Your task to perform on an android device: check battery use Image 0: 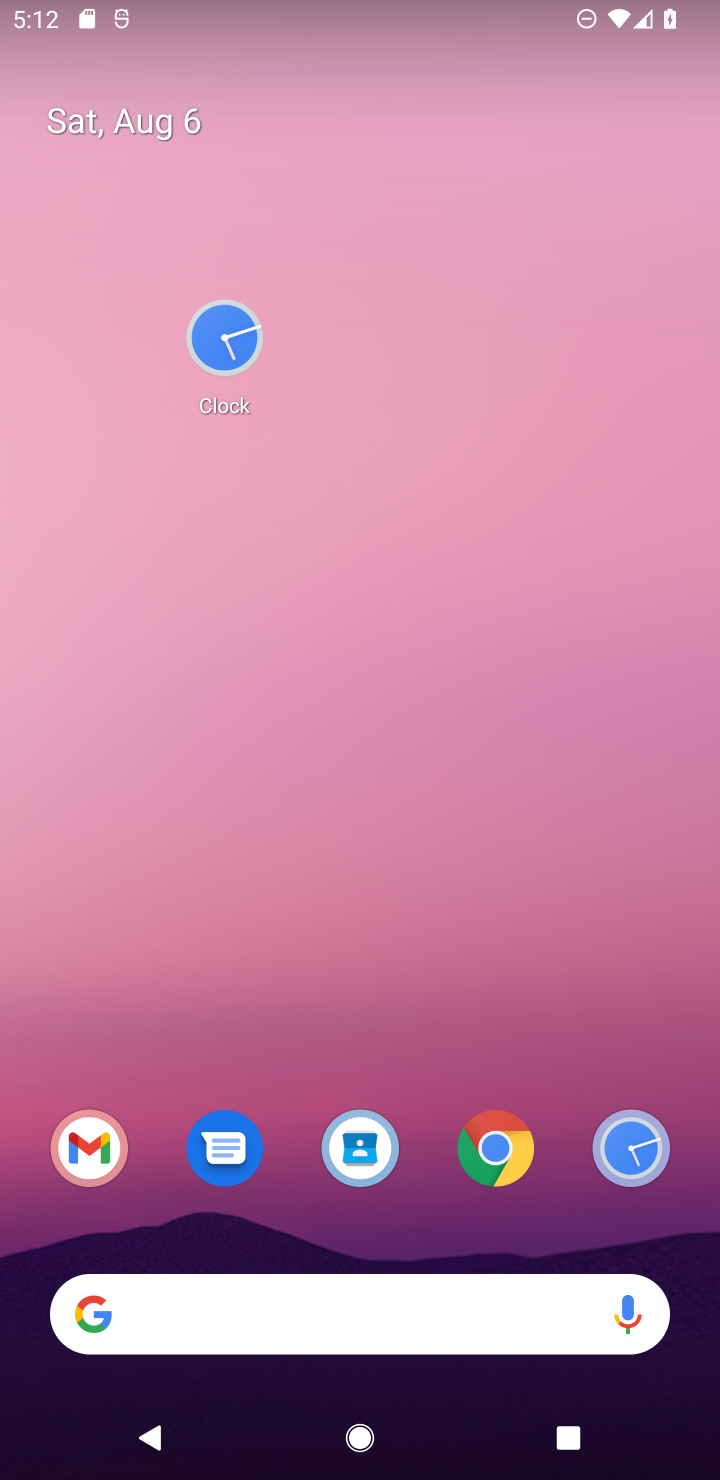
Step 0: drag from (398, 1161) to (352, 176)
Your task to perform on an android device: check battery use Image 1: 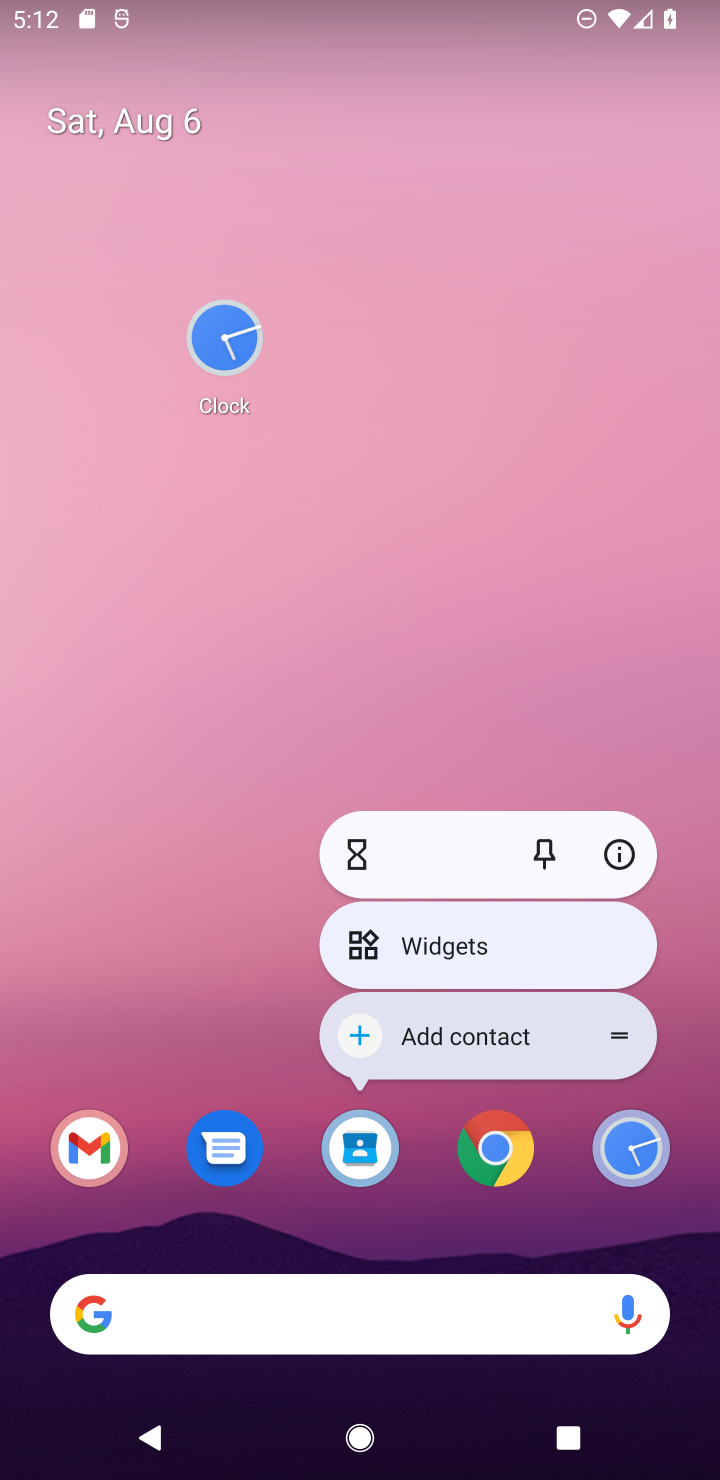
Step 1: drag from (263, 1244) to (340, 161)
Your task to perform on an android device: check battery use Image 2: 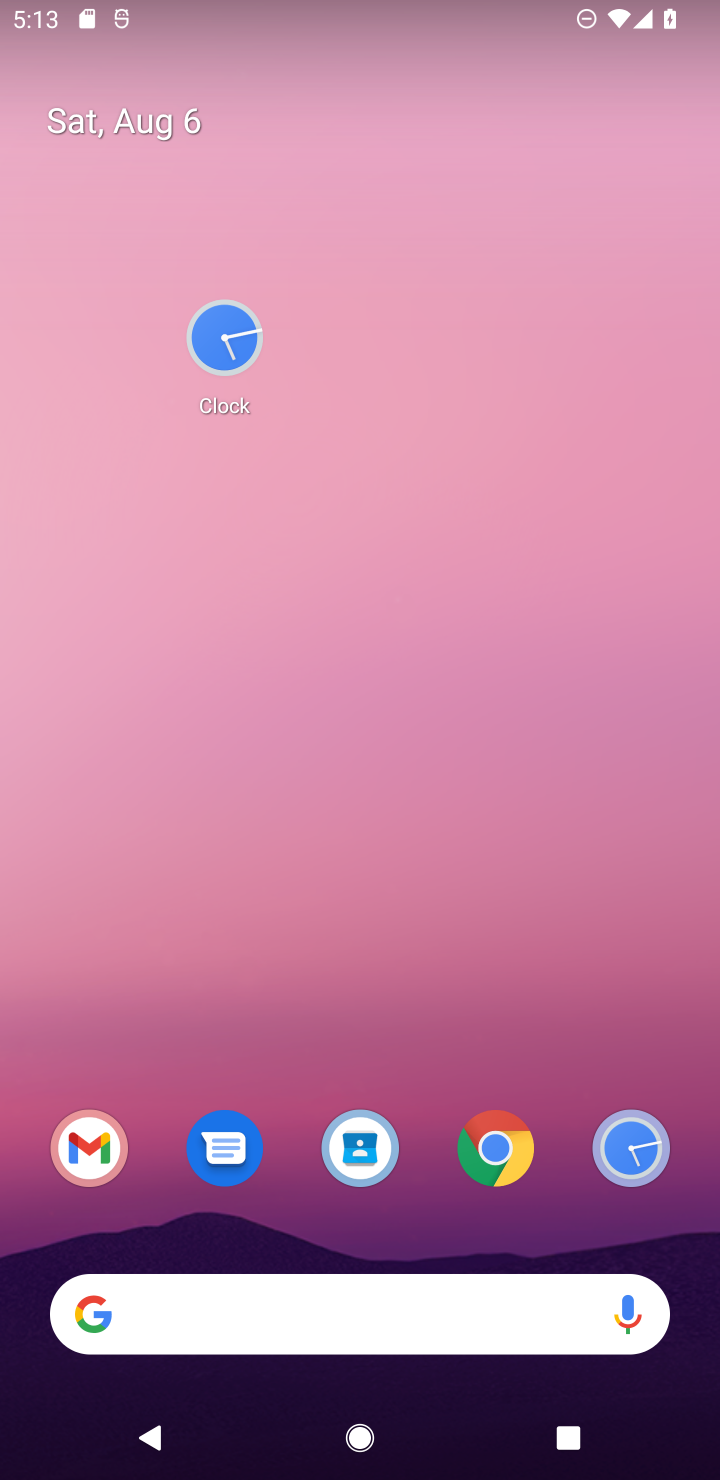
Step 2: drag from (311, 1211) to (502, 408)
Your task to perform on an android device: check battery use Image 3: 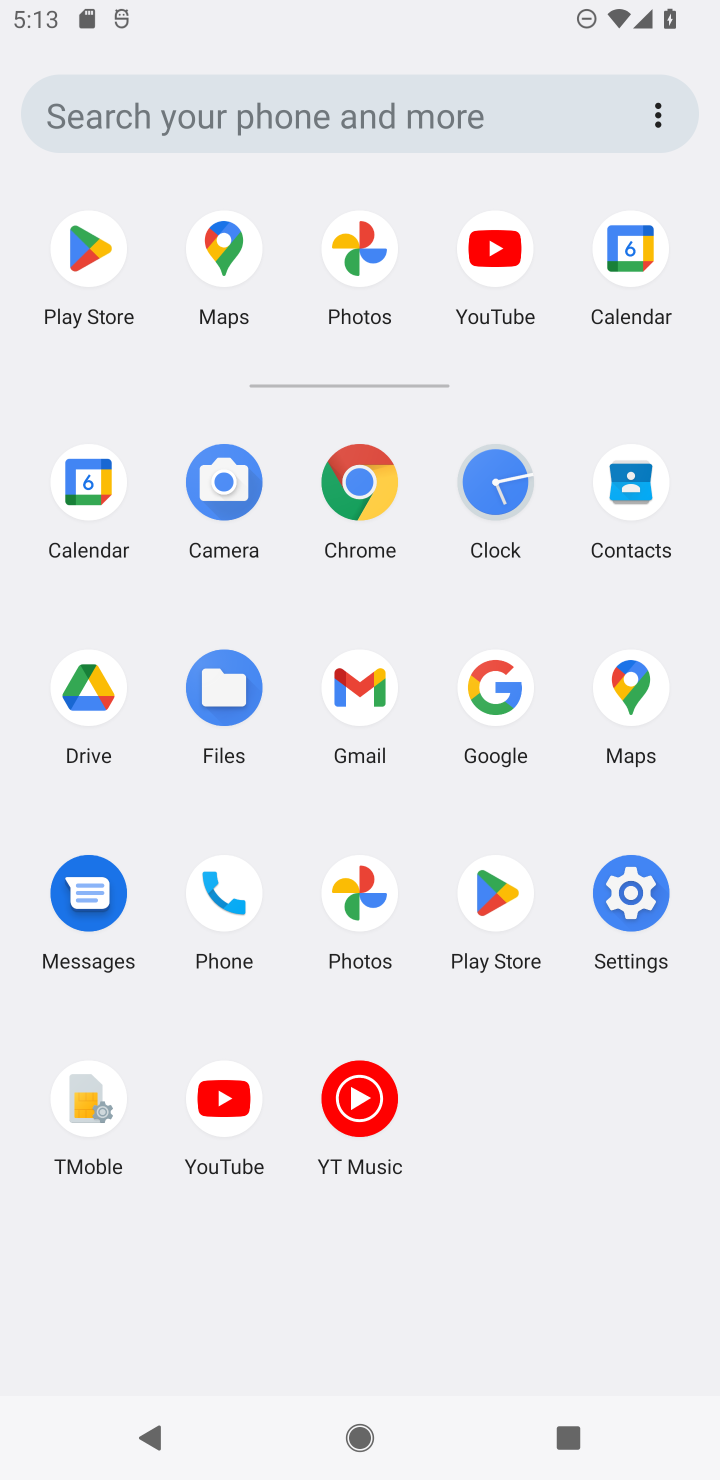
Step 3: click (618, 896)
Your task to perform on an android device: check battery use Image 4: 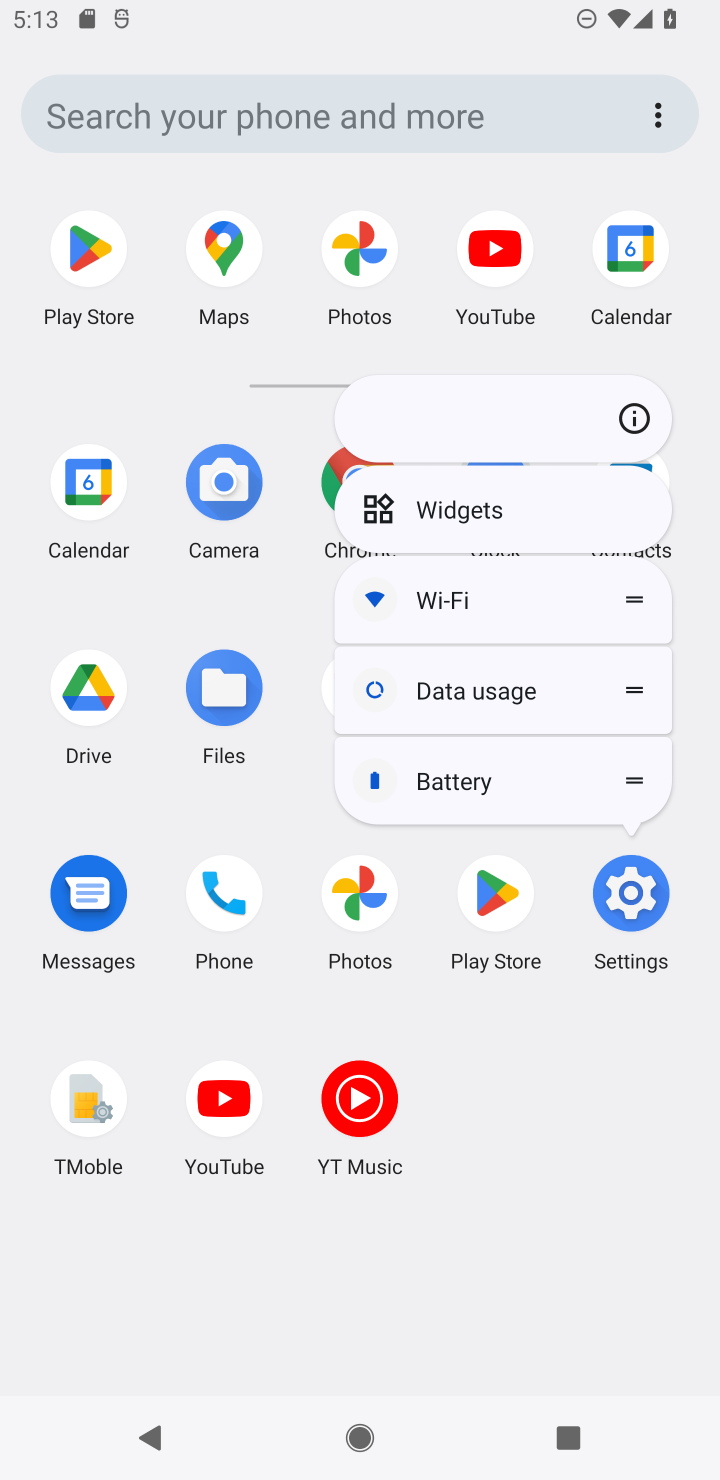
Step 4: click (629, 424)
Your task to perform on an android device: check battery use Image 5: 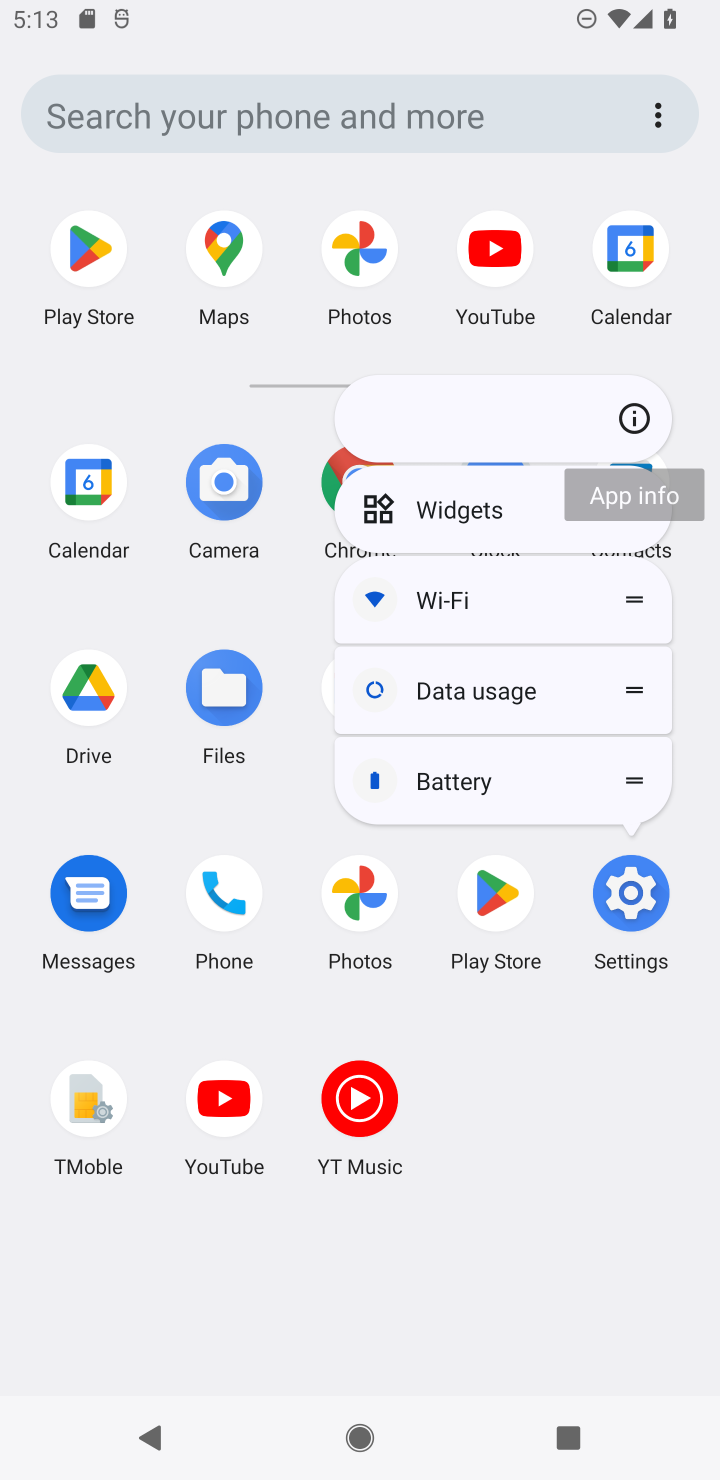
Step 5: click (651, 422)
Your task to perform on an android device: check battery use Image 6: 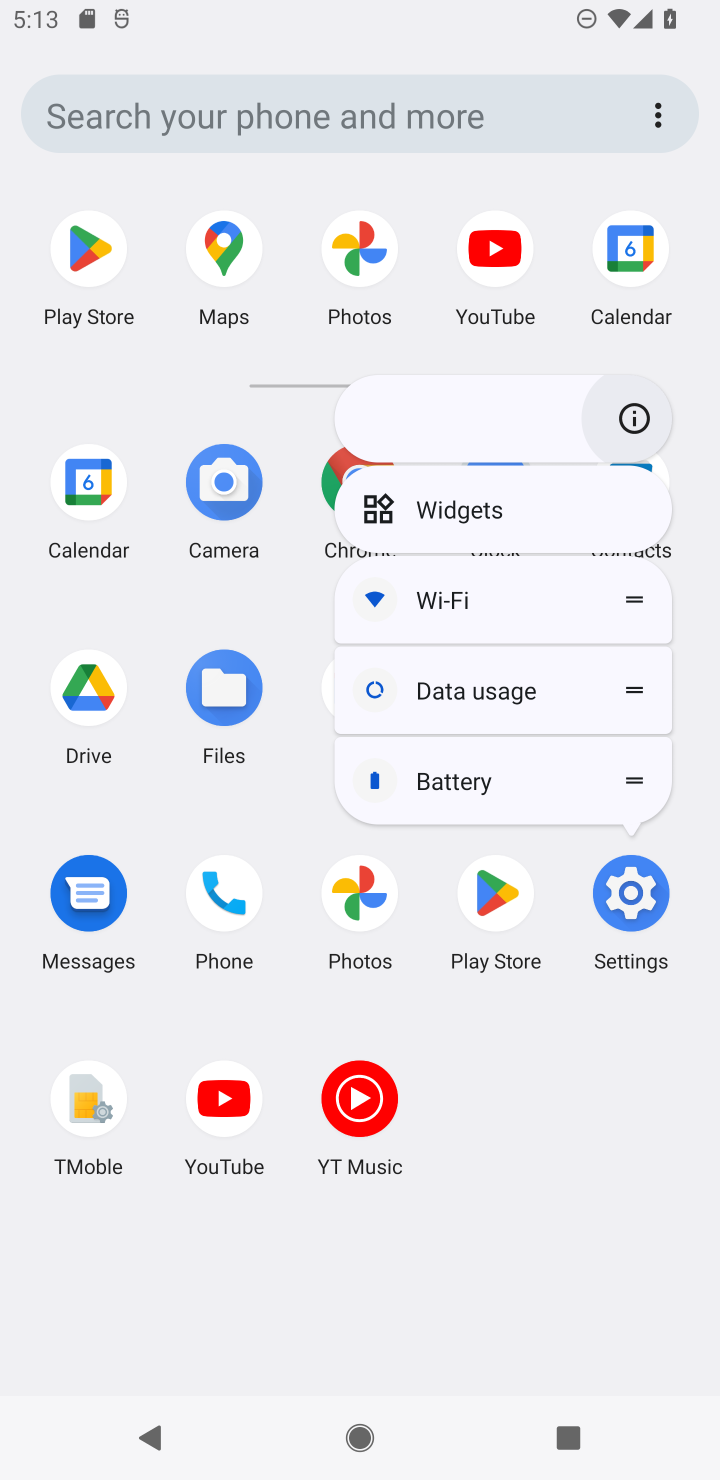
Step 6: click (639, 411)
Your task to perform on an android device: check battery use Image 7: 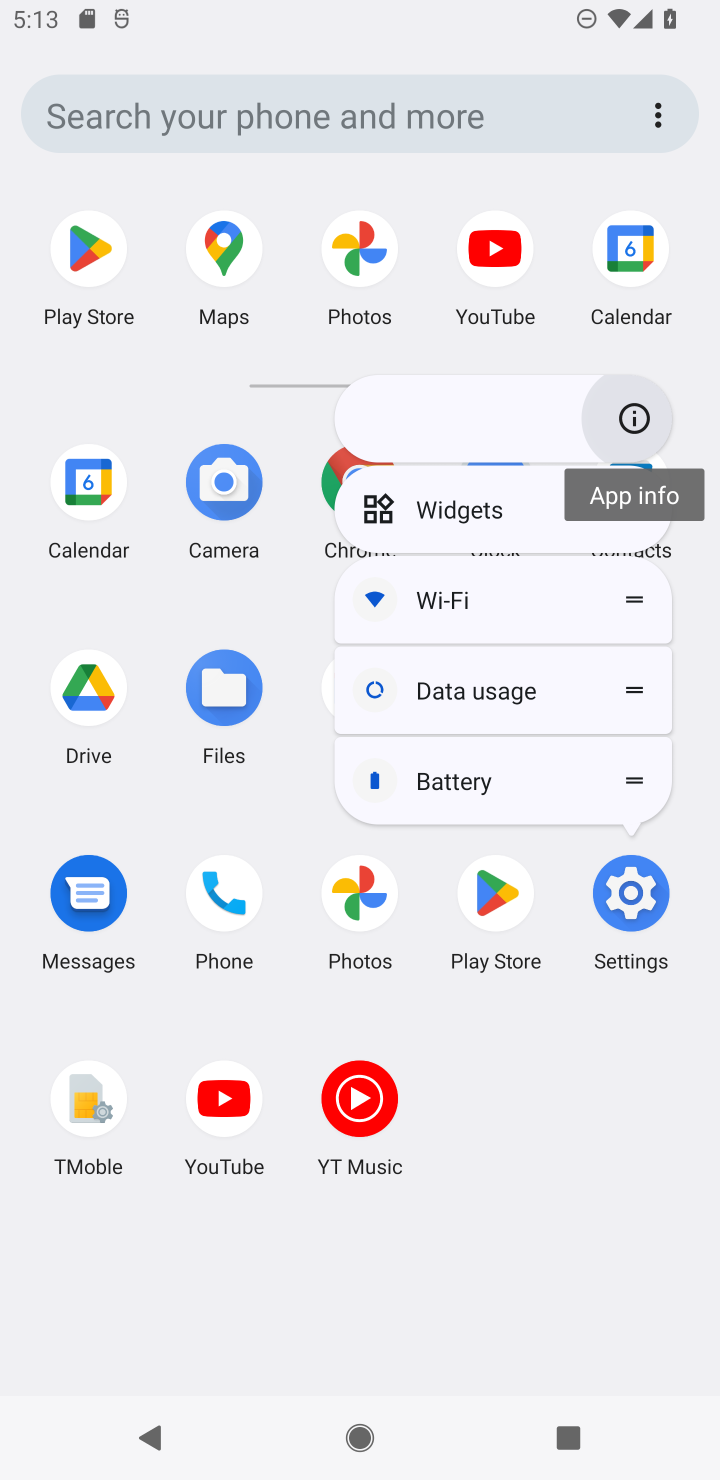
Step 7: click (622, 872)
Your task to perform on an android device: check battery use Image 8: 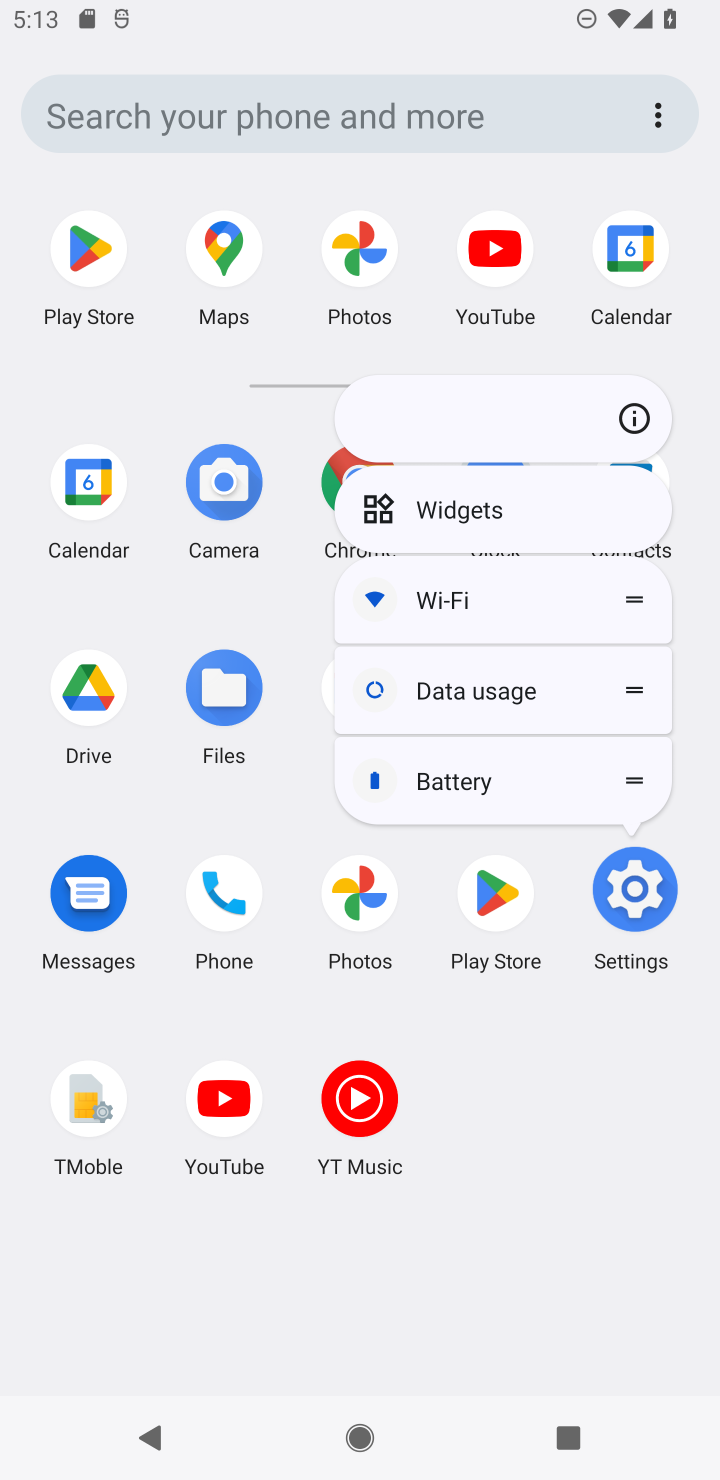
Step 8: click (649, 919)
Your task to perform on an android device: check battery use Image 9: 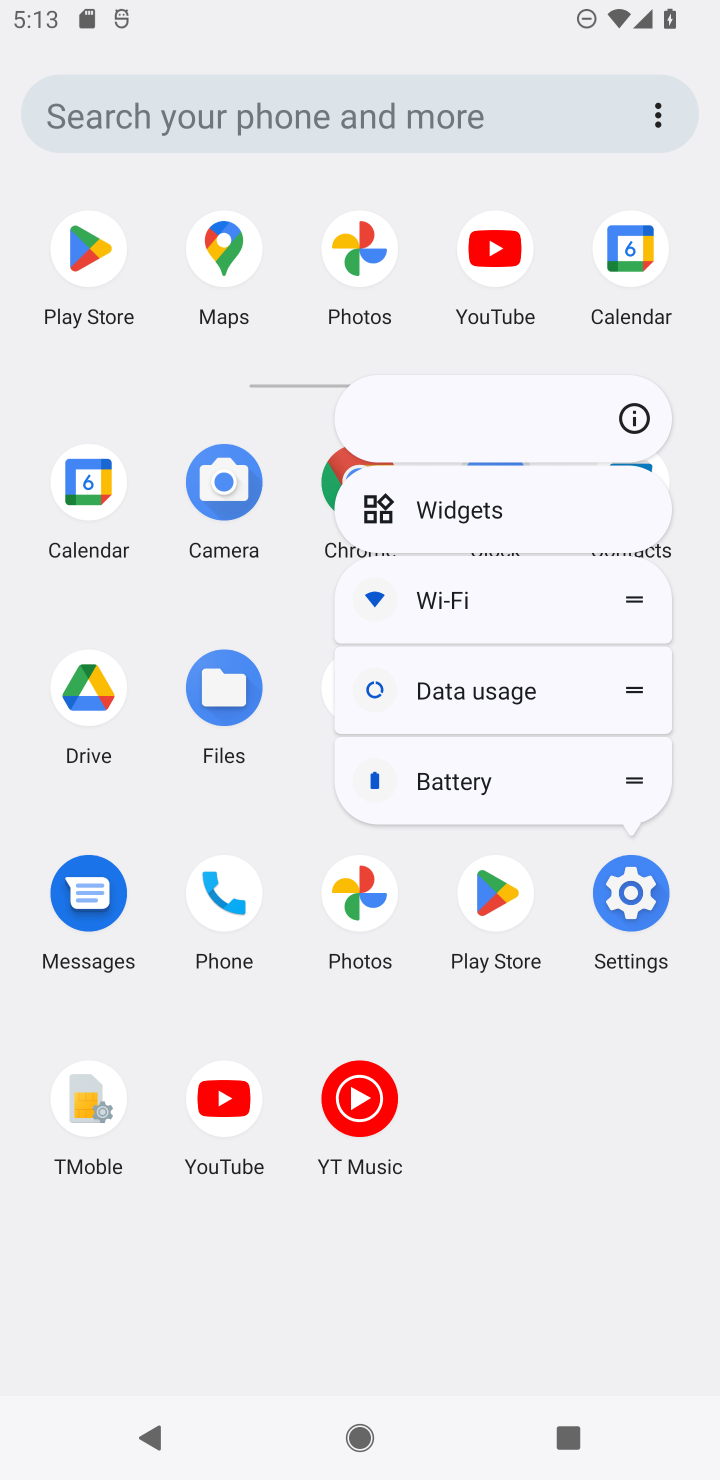
Step 9: click (636, 408)
Your task to perform on an android device: check battery use Image 10: 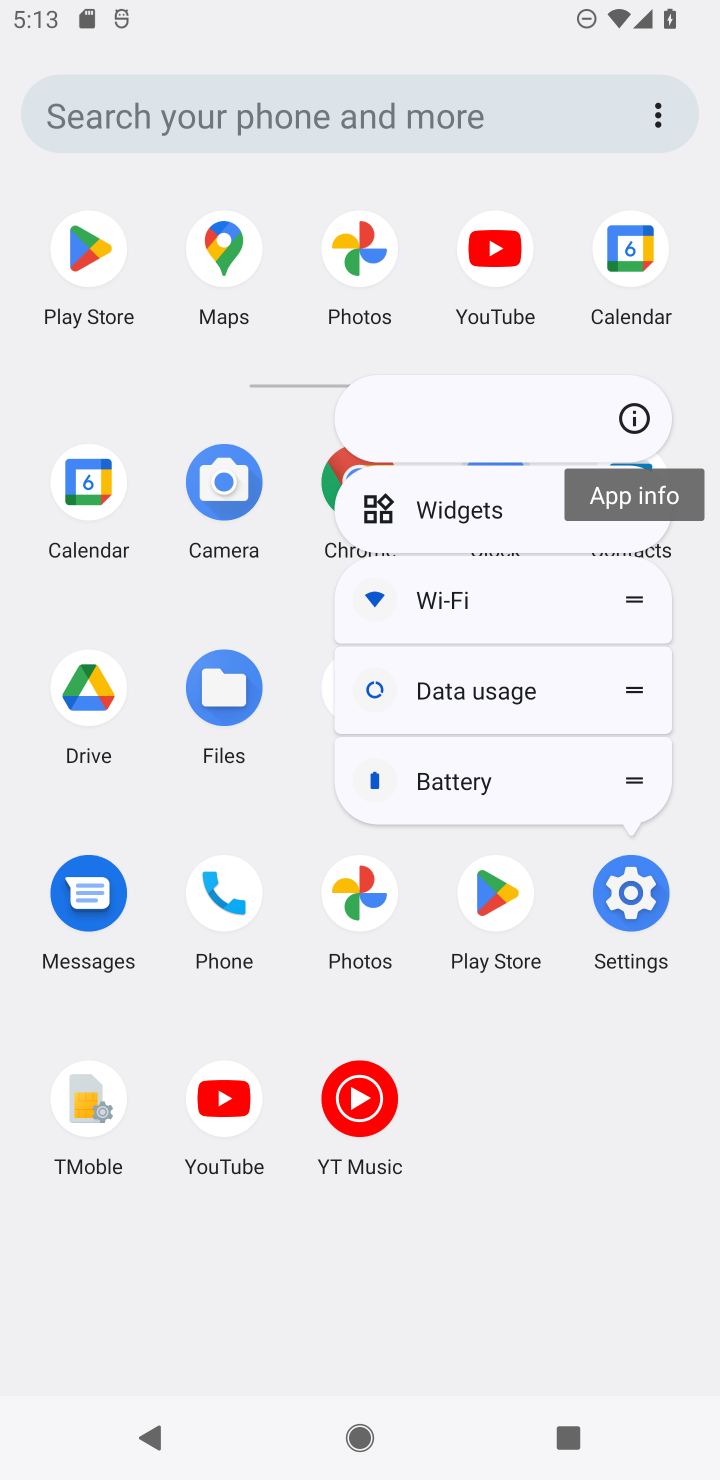
Step 10: click (629, 406)
Your task to perform on an android device: check battery use Image 11: 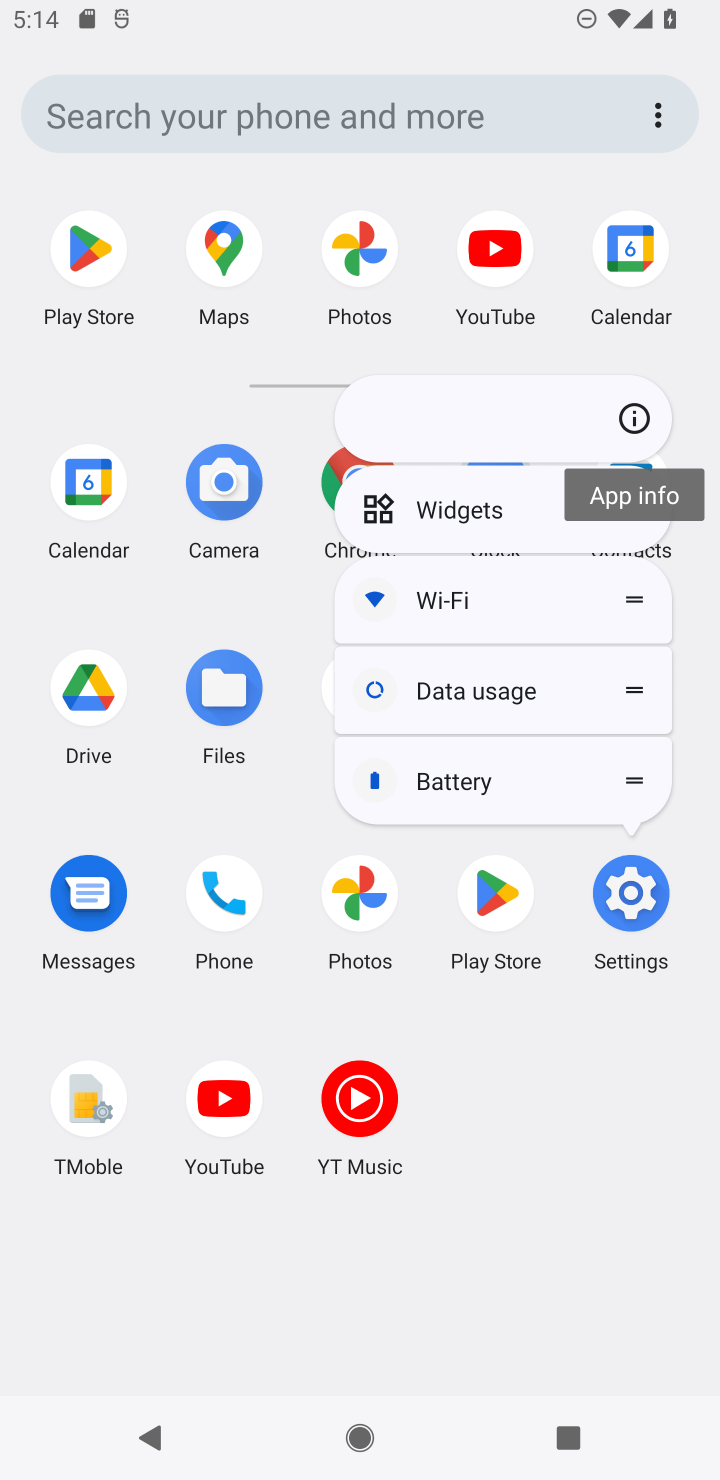
Step 11: click (622, 870)
Your task to perform on an android device: check battery use Image 12: 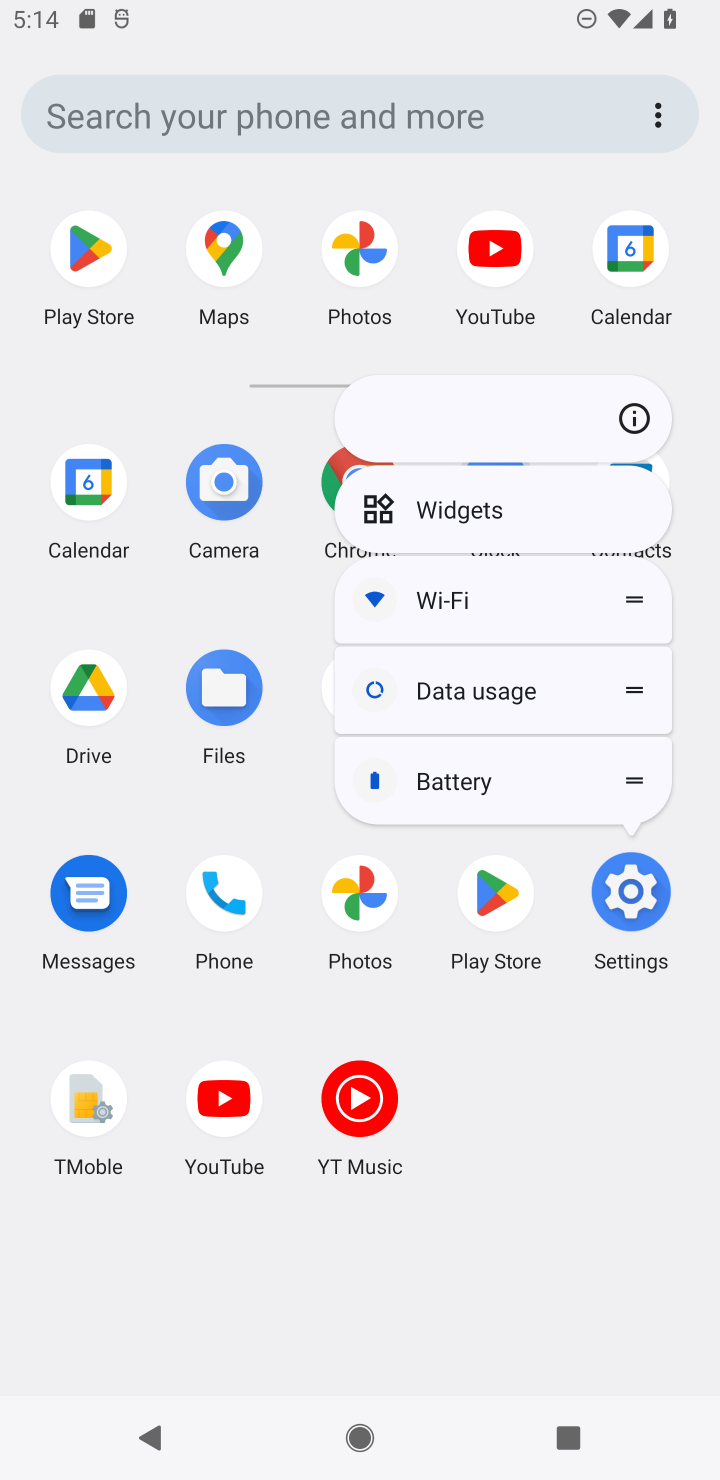
Step 12: click (616, 862)
Your task to perform on an android device: check battery use Image 13: 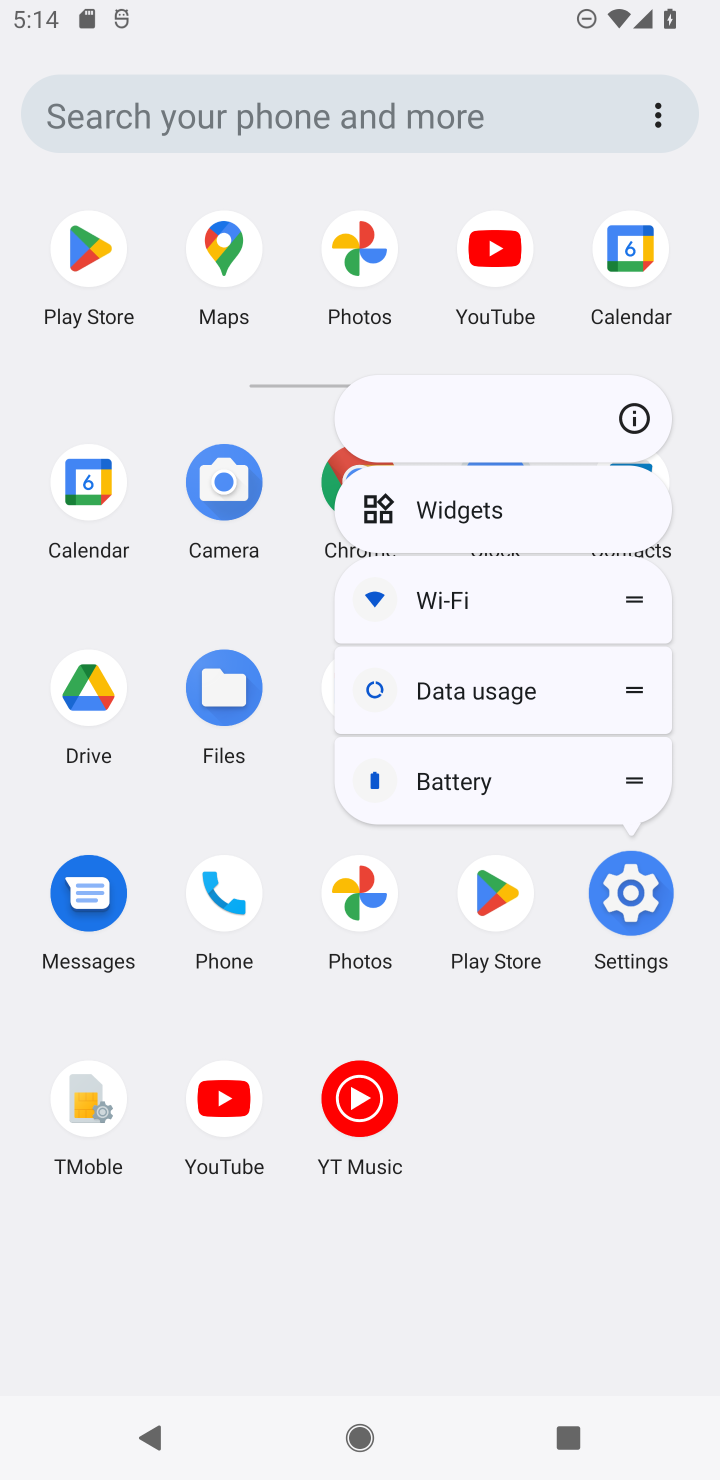
Step 13: click (614, 862)
Your task to perform on an android device: check battery use Image 14: 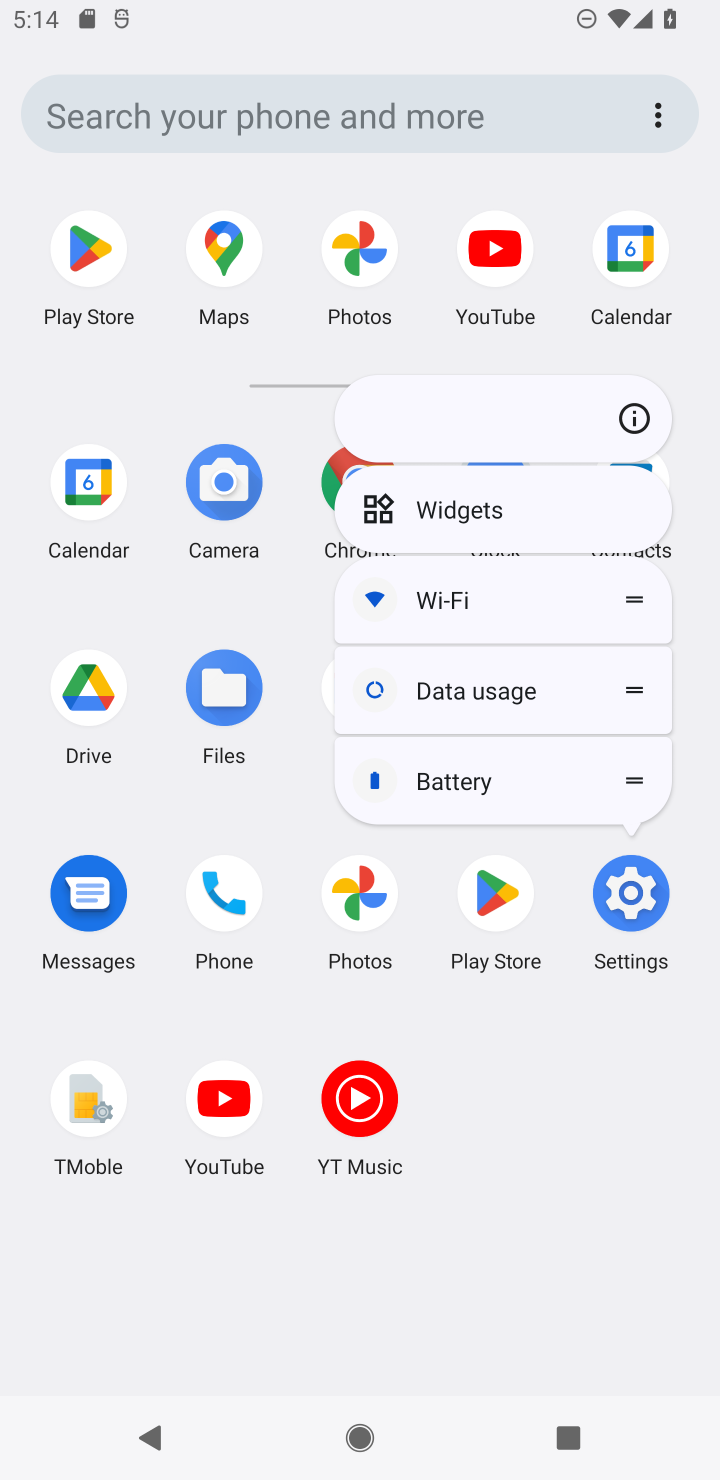
Step 14: click (622, 418)
Your task to perform on an android device: check battery use Image 15: 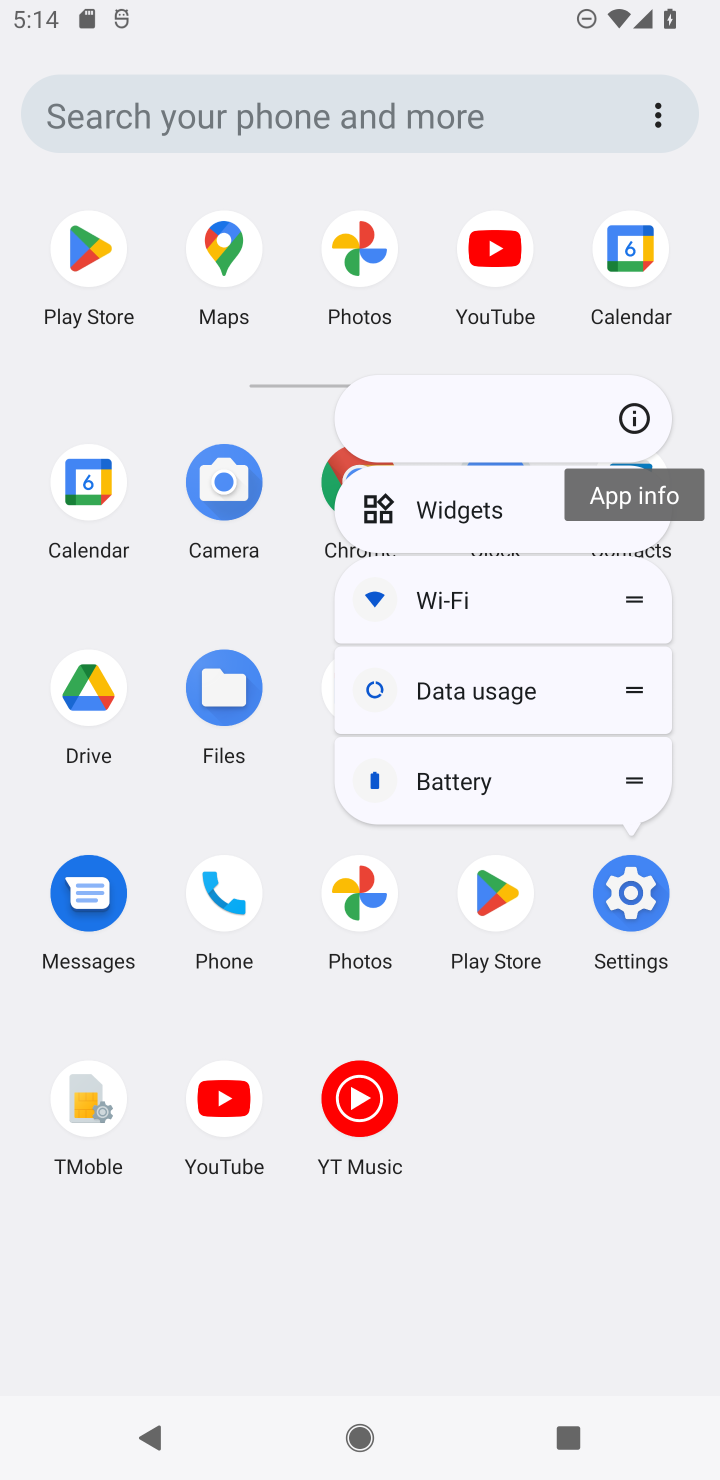
Step 15: click (620, 402)
Your task to perform on an android device: check battery use Image 16: 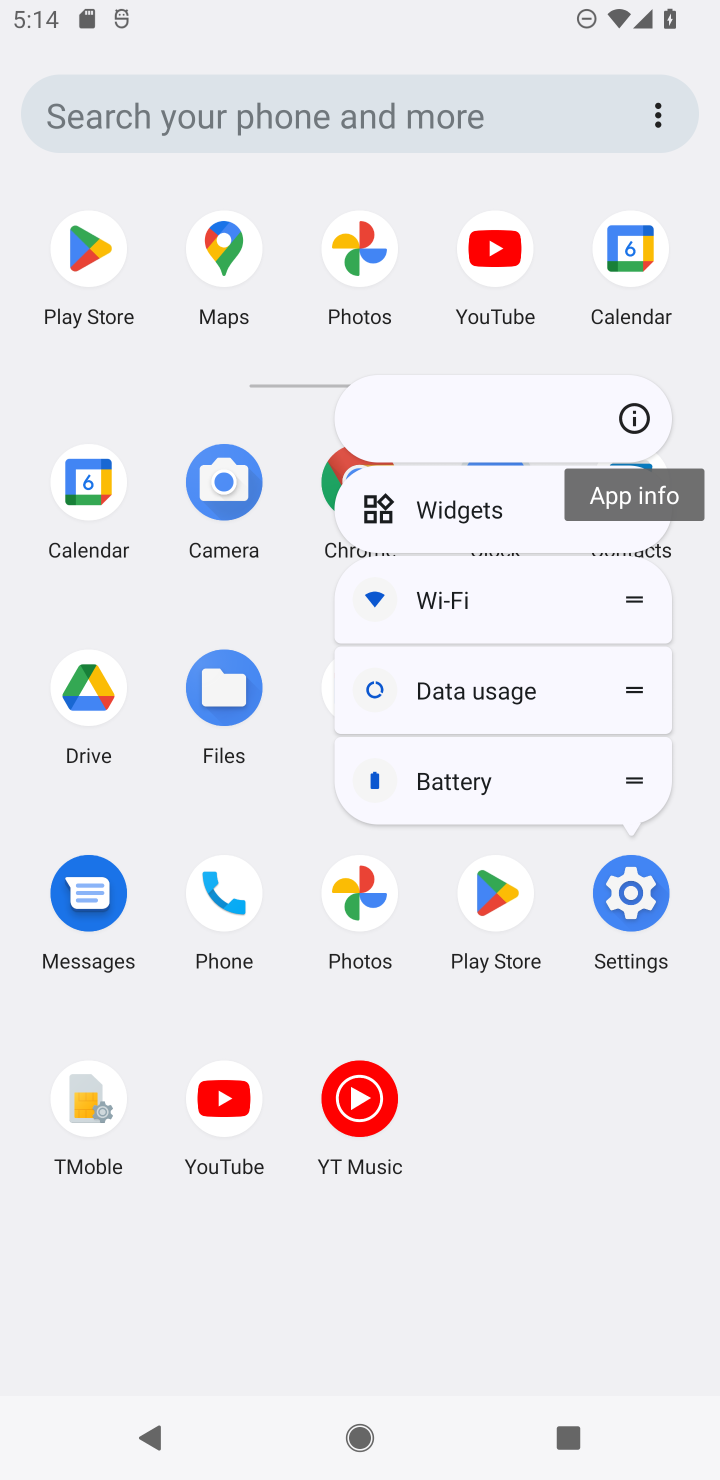
Step 16: press home button
Your task to perform on an android device: check battery use Image 17: 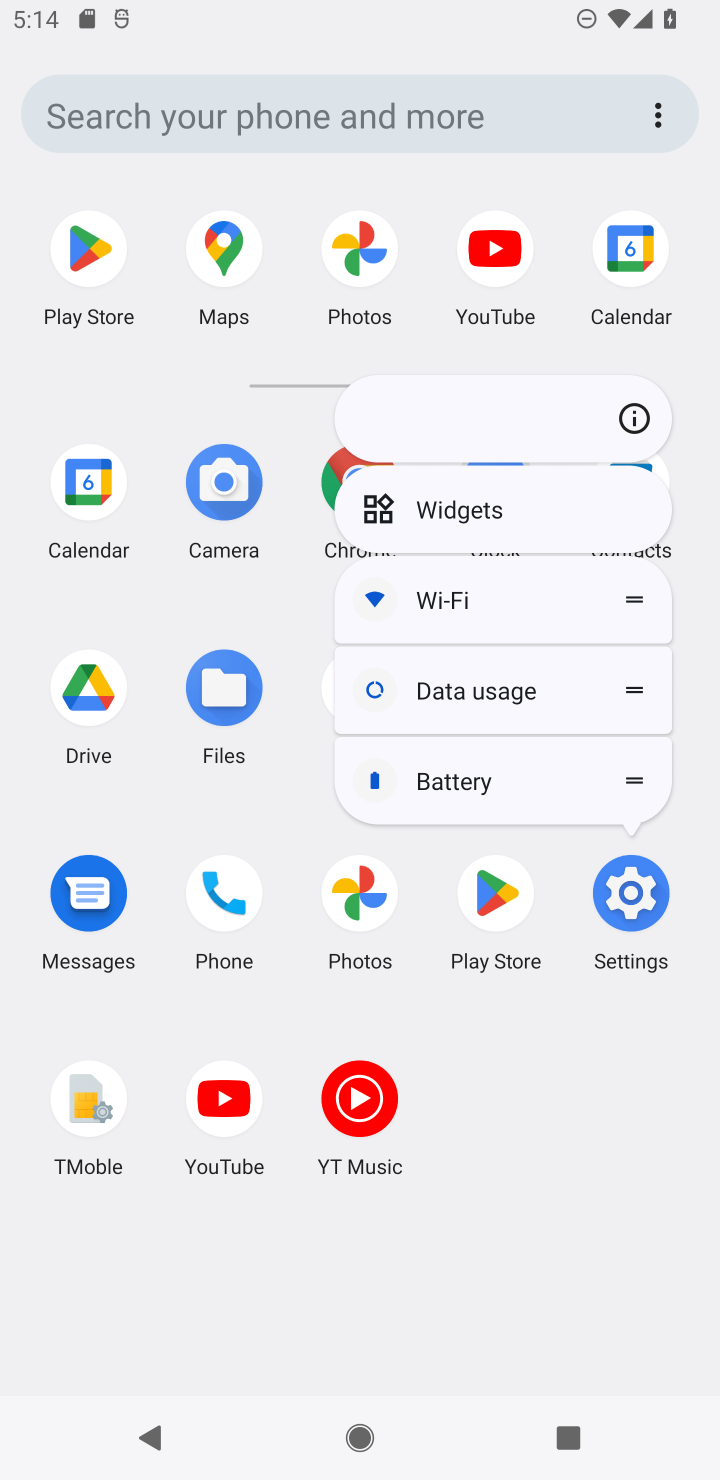
Step 17: press home button
Your task to perform on an android device: check battery use Image 18: 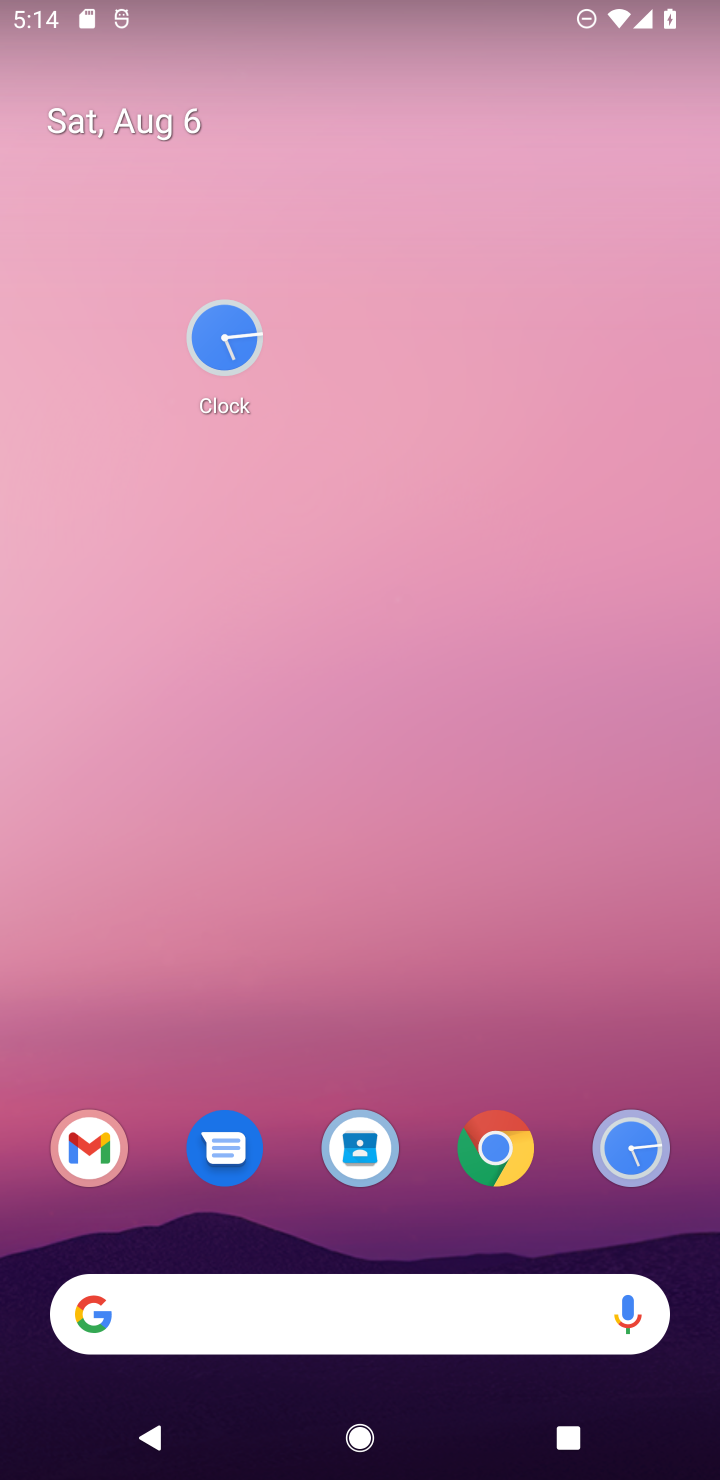
Step 18: drag from (283, 1122) to (444, 575)
Your task to perform on an android device: check battery use Image 19: 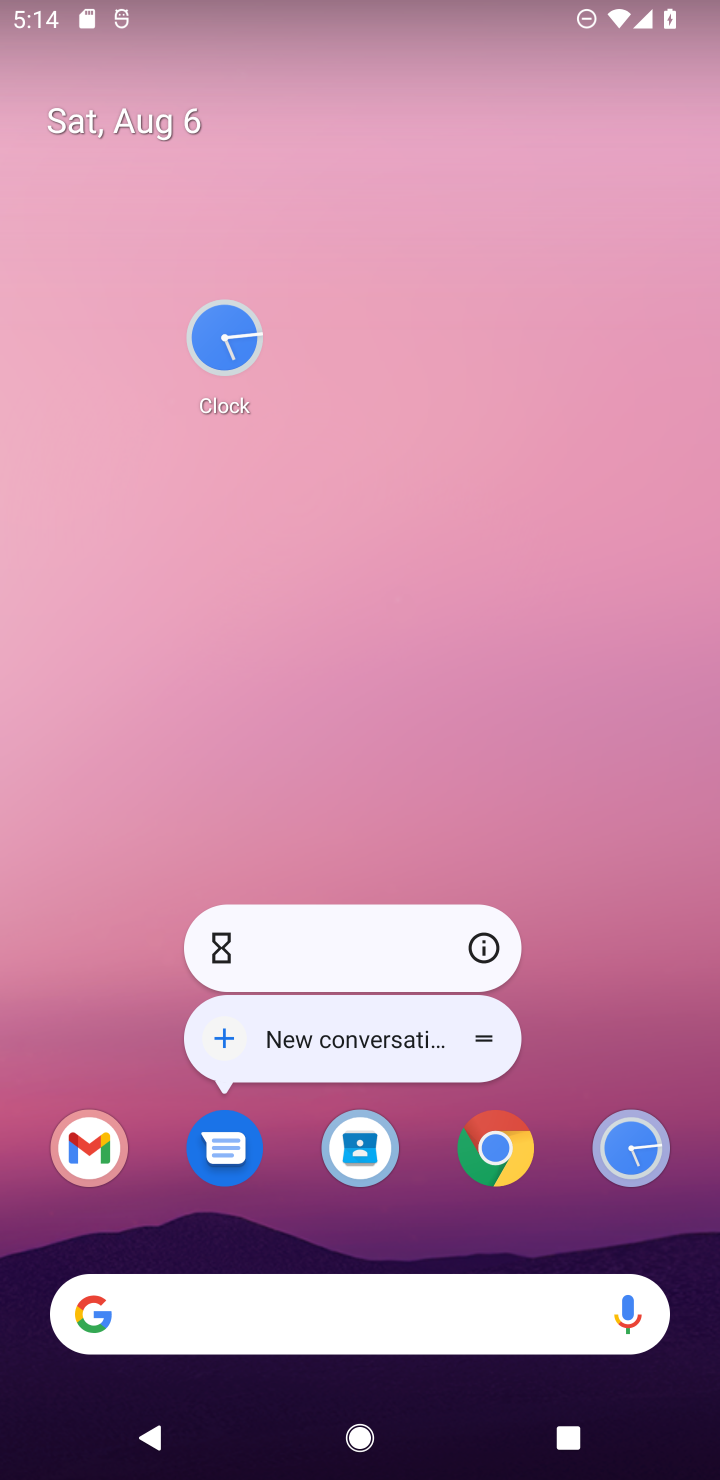
Step 19: drag from (381, 1117) to (719, 352)
Your task to perform on an android device: check battery use Image 20: 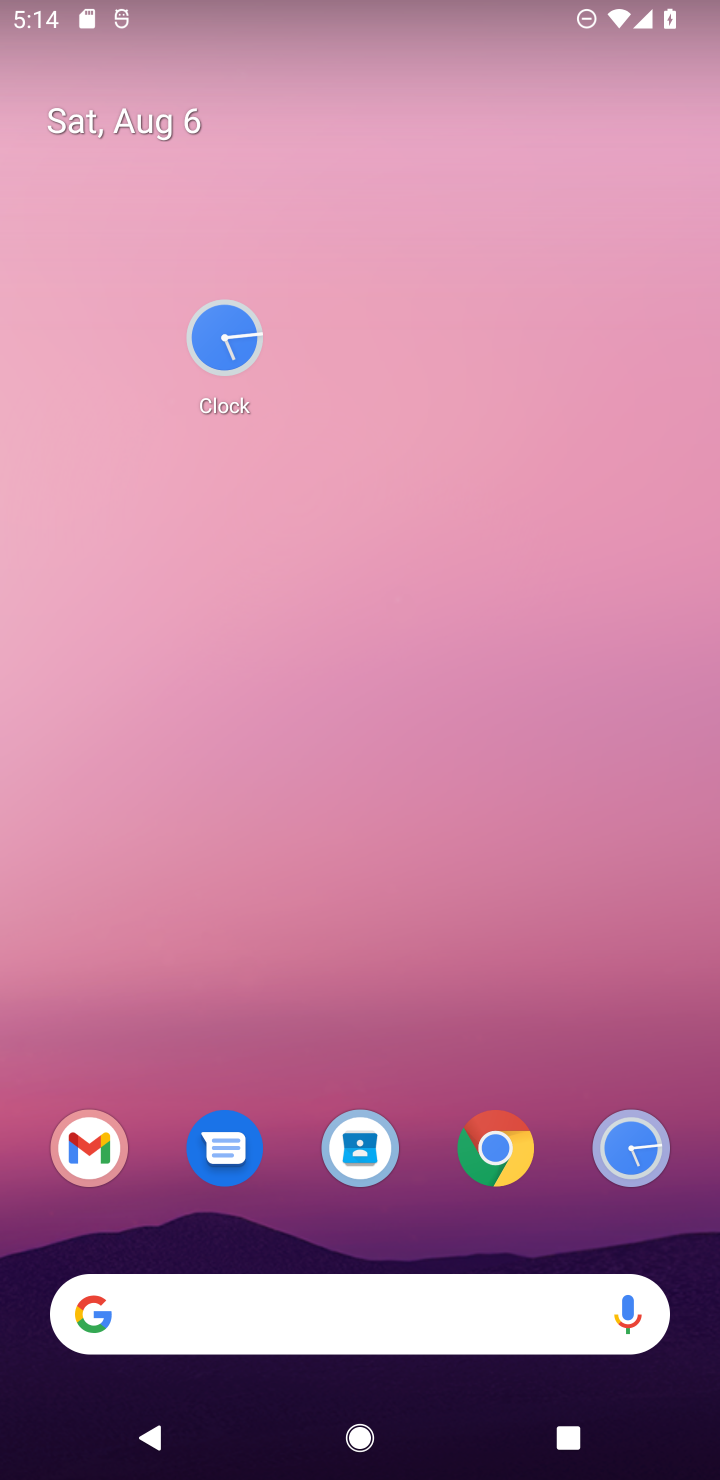
Step 20: drag from (313, 1142) to (290, 0)
Your task to perform on an android device: check battery use Image 21: 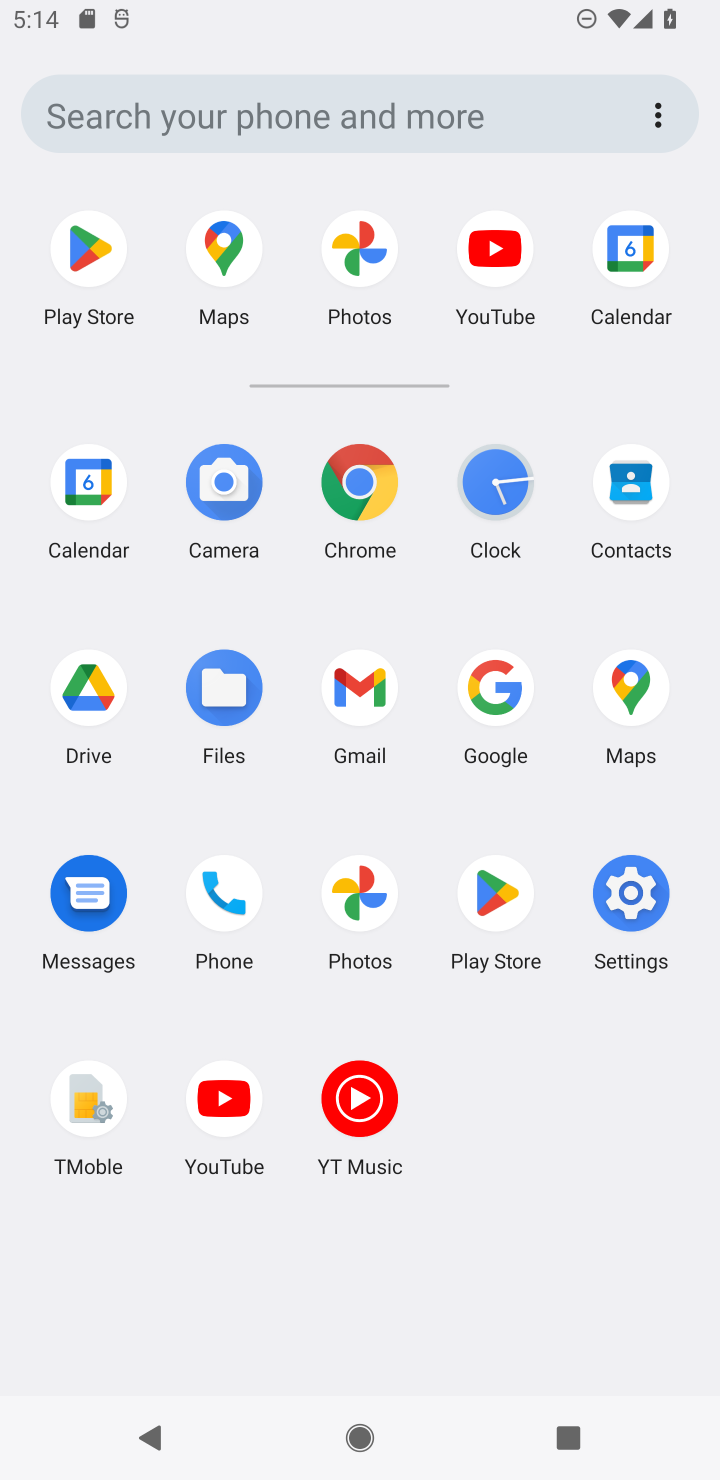
Step 21: click (643, 873)
Your task to perform on an android device: check battery use Image 22: 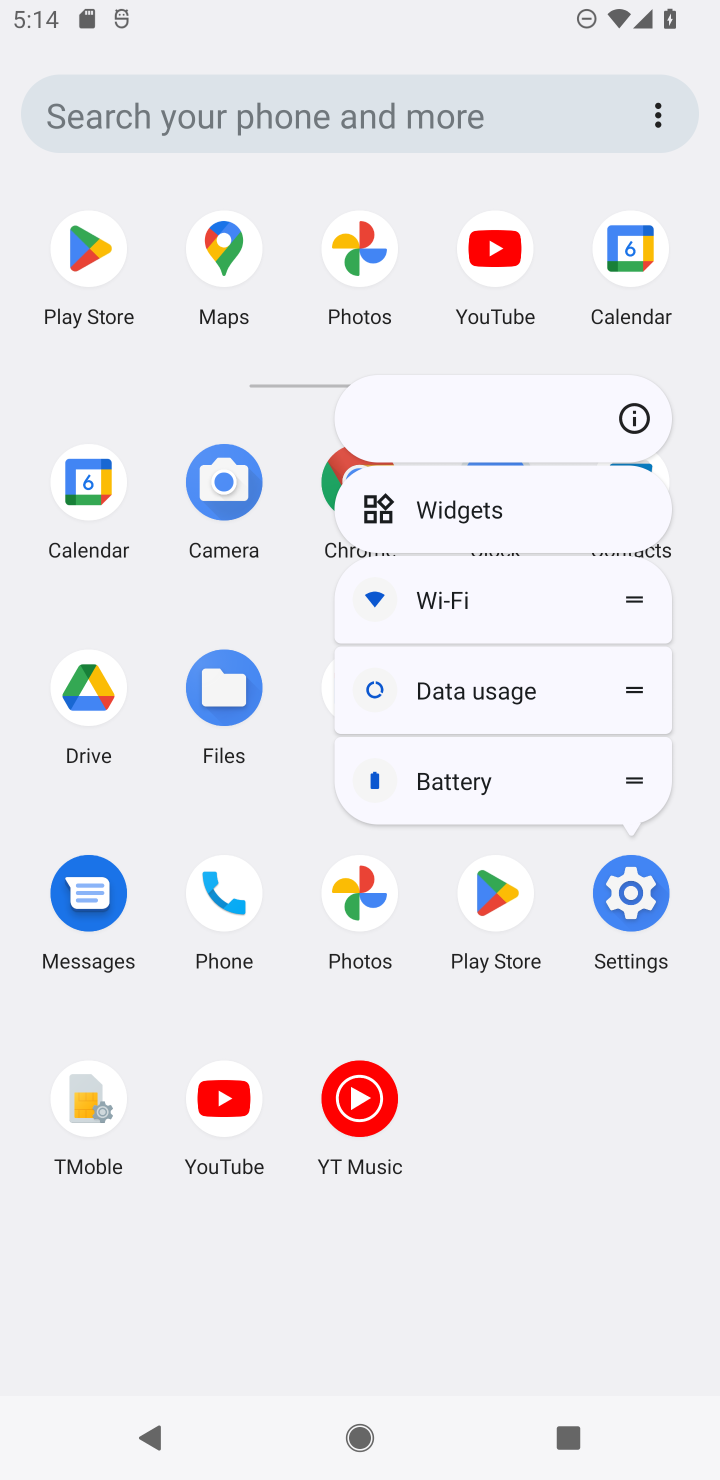
Step 22: click (629, 430)
Your task to perform on an android device: check battery use Image 23: 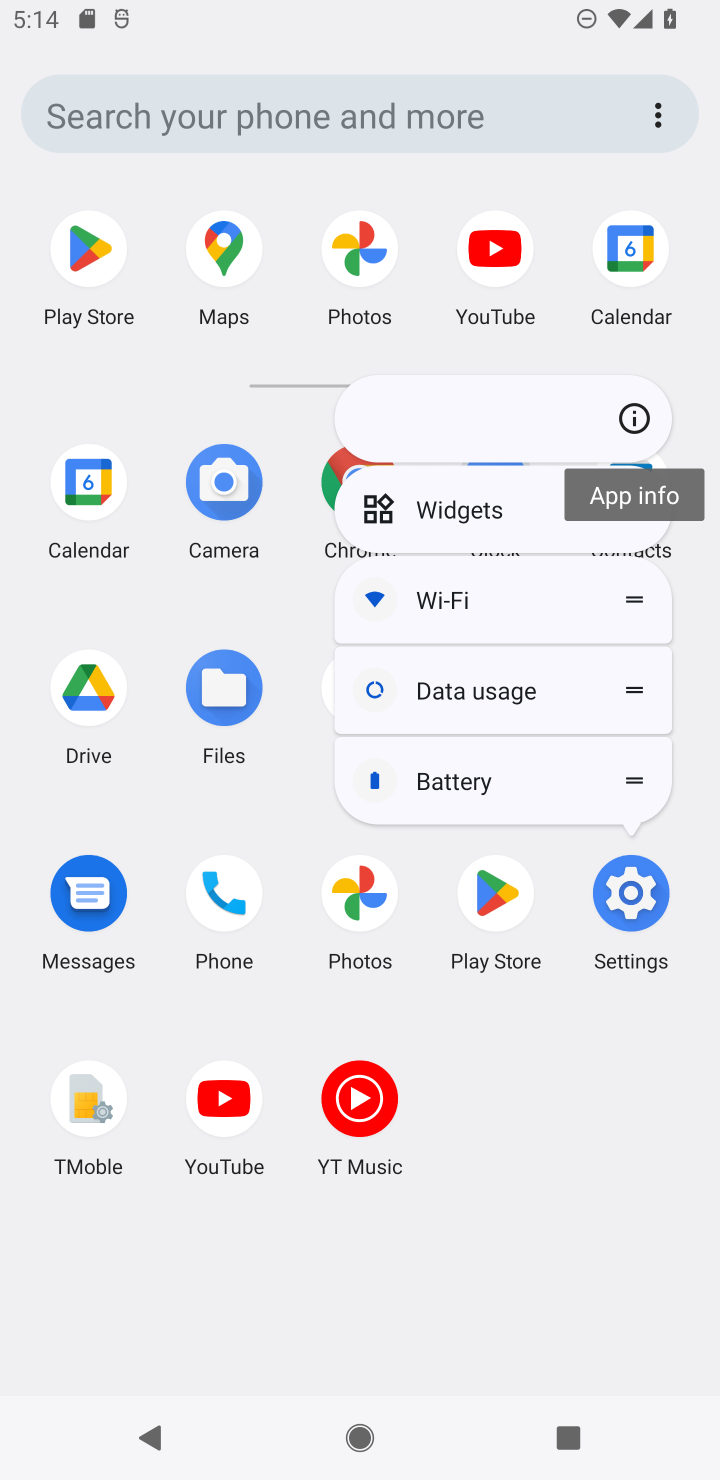
Step 23: click (627, 428)
Your task to perform on an android device: check battery use Image 24: 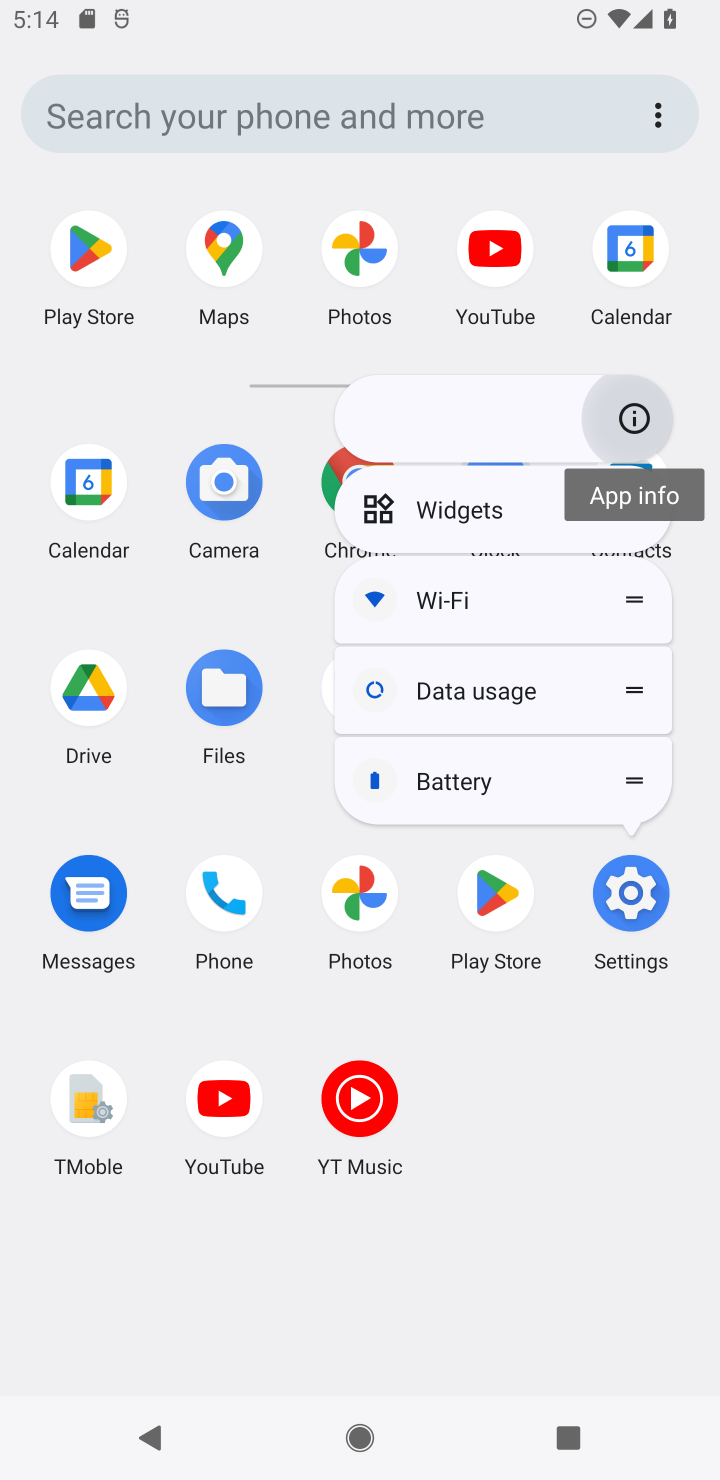
Step 24: click (627, 428)
Your task to perform on an android device: check battery use Image 25: 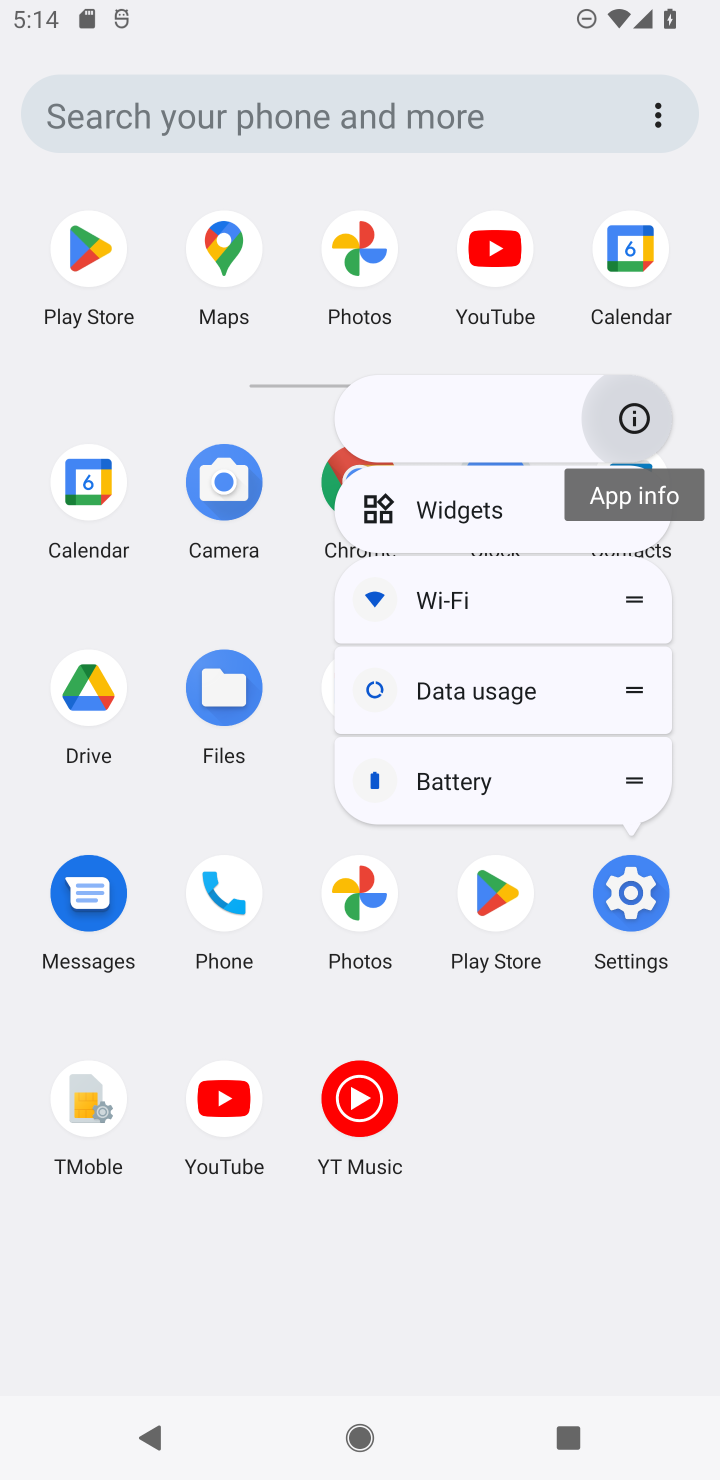
Step 25: click (620, 918)
Your task to perform on an android device: check battery use Image 26: 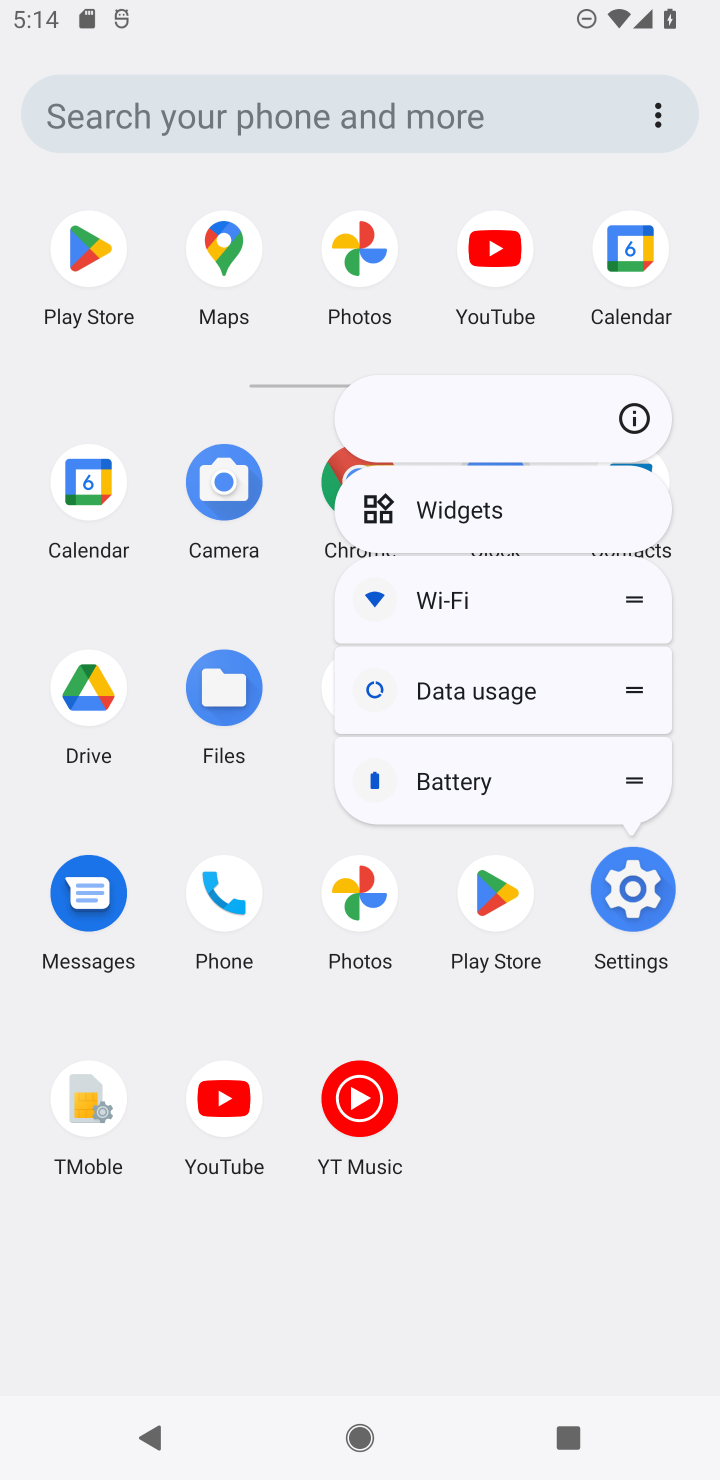
Step 26: click (628, 885)
Your task to perform on an android device: check battery use Image 27: 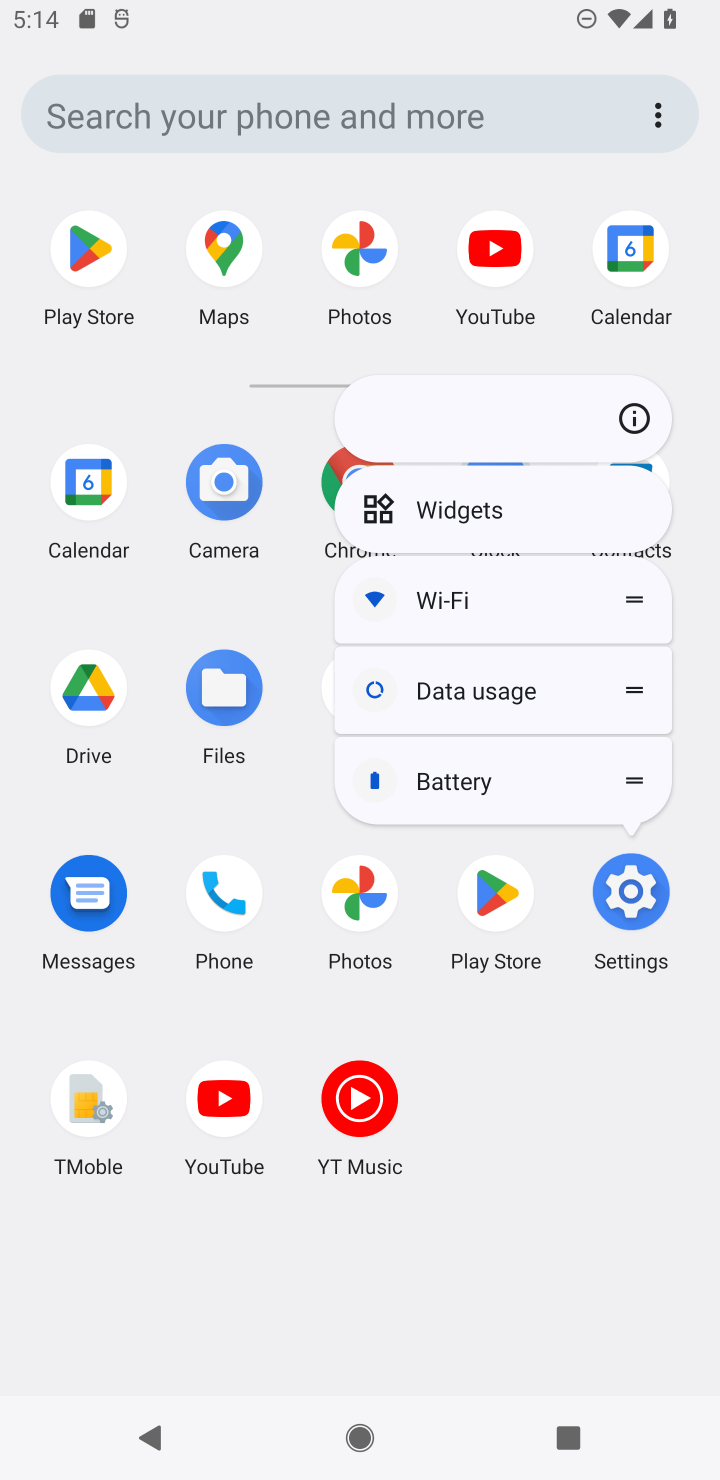
Step 27: click (628, 885)
Your task to perform on an android device: check battery use Image 28: 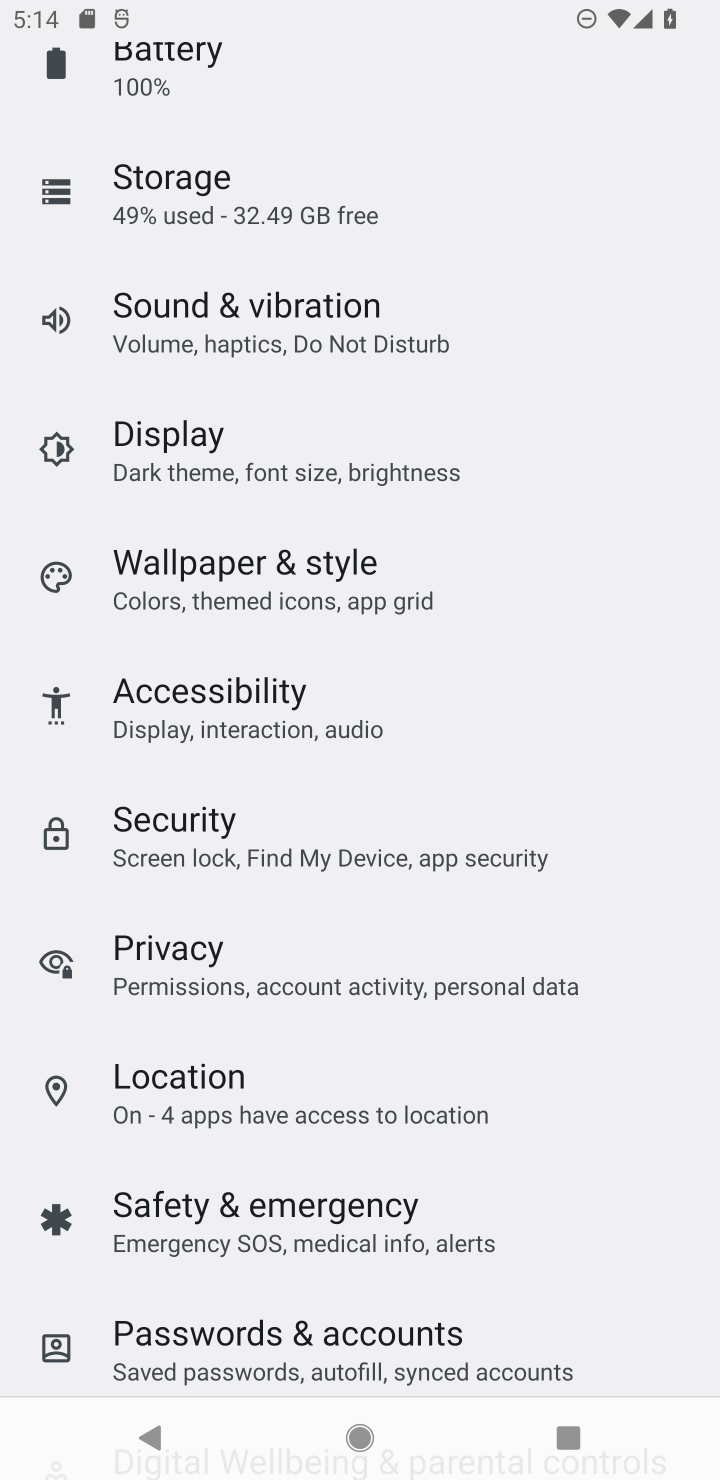
Step 28: drag from (282, 1224) to (405, 470)
Your task to perform on an android device: check battery use Image 29: 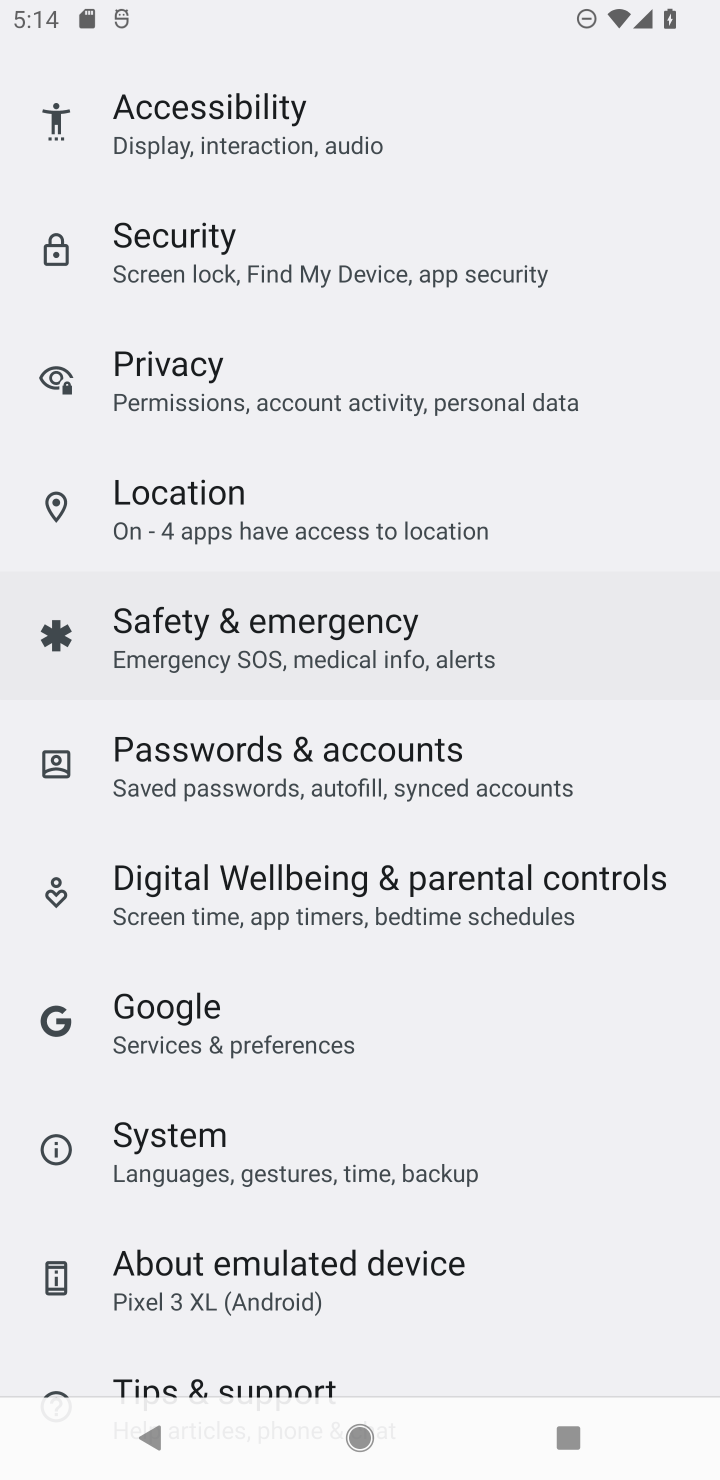
Step 29: drag from (395, 562) to (332, 1299)
Your task to perform on an android device: check battery use Image 30: 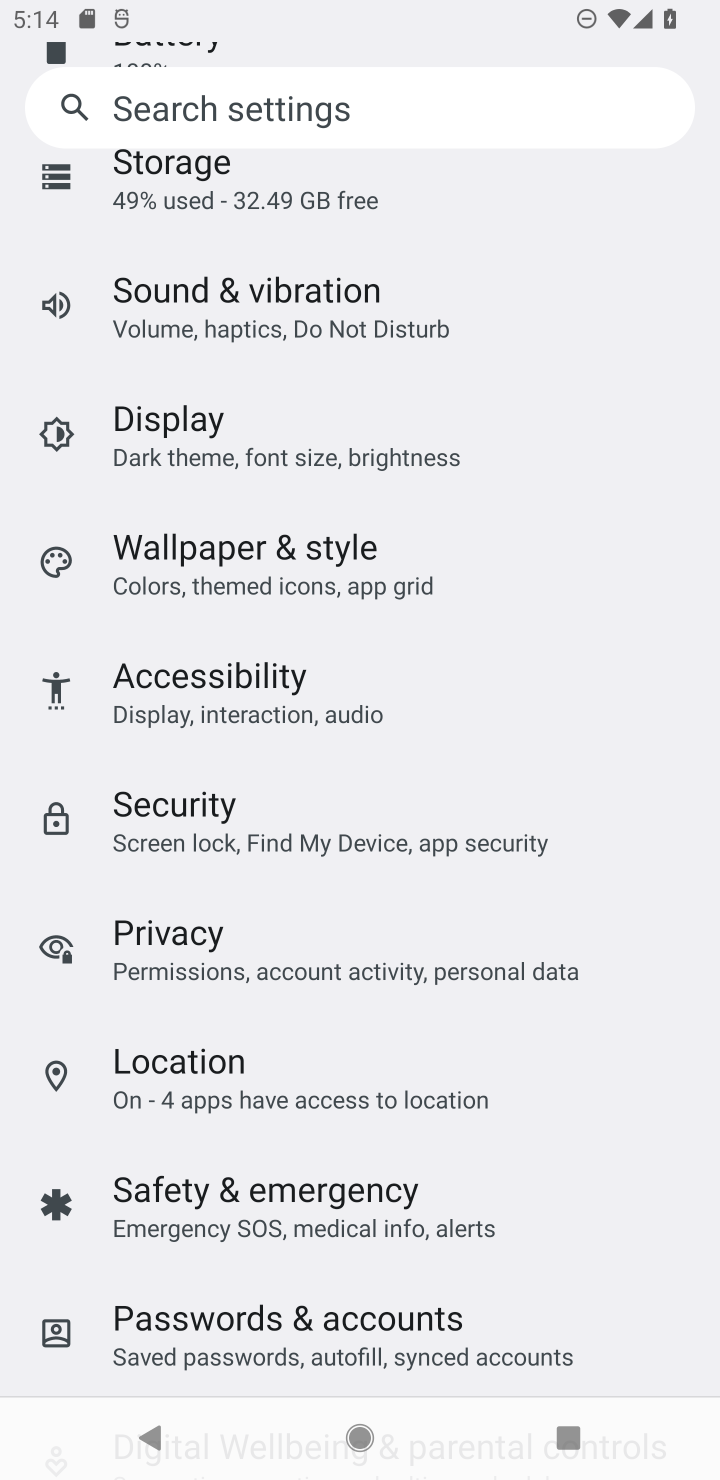
Step 30: drag from (279, 505) to (300, 1201)
Your task to perform on an android device: check battery use Image 31: 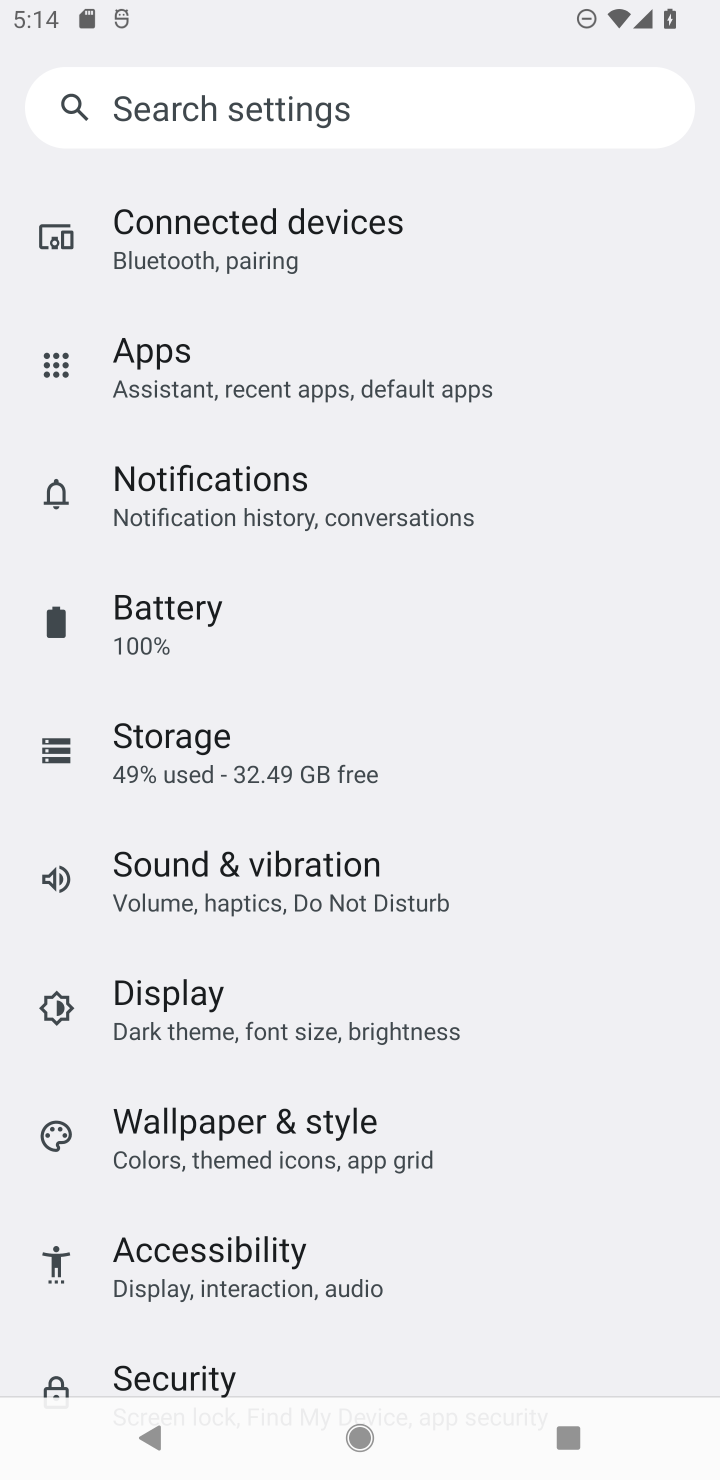
Step 31: click (196, 633)
Your task to perform on an android device: check battery use Image 32: 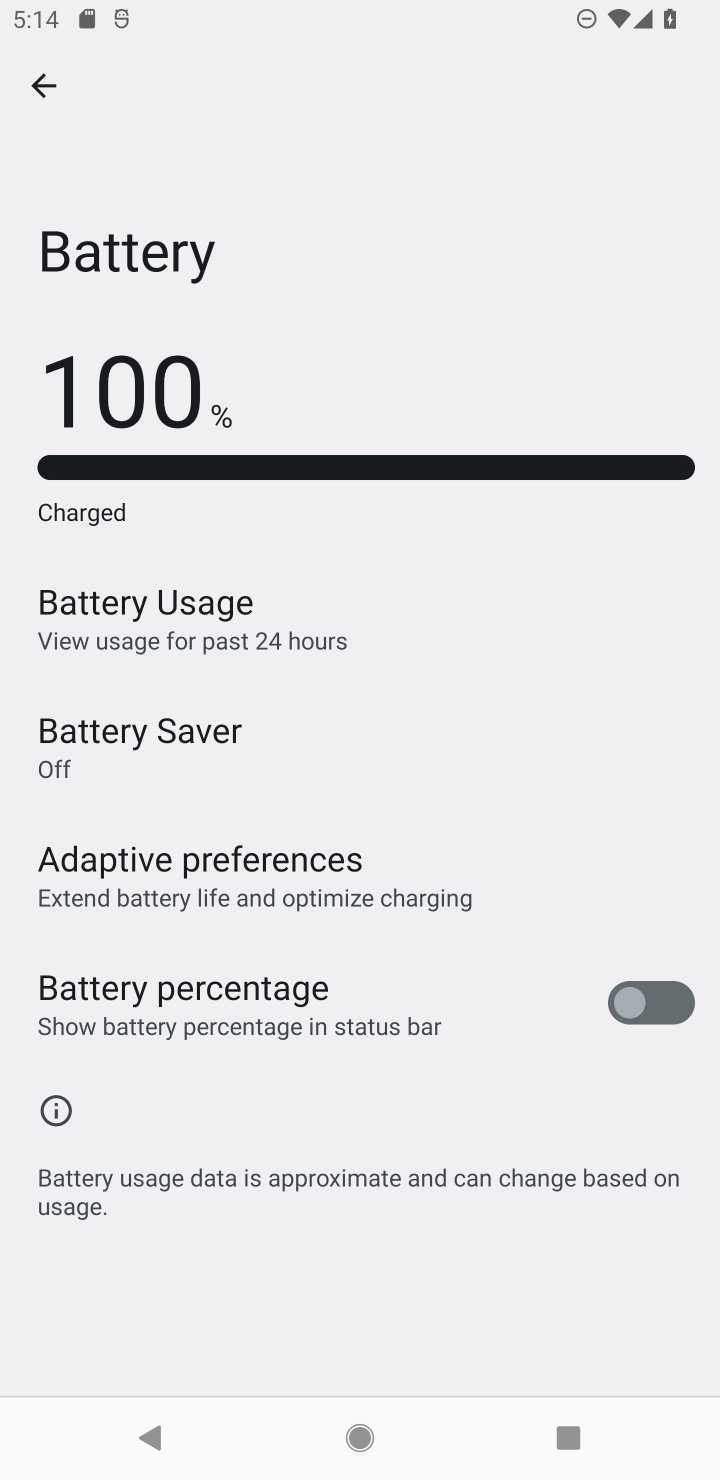
Step 32: drag from (252, 1024) to (355, 286)
Your task to perform on an android device: check battery use Image 33: 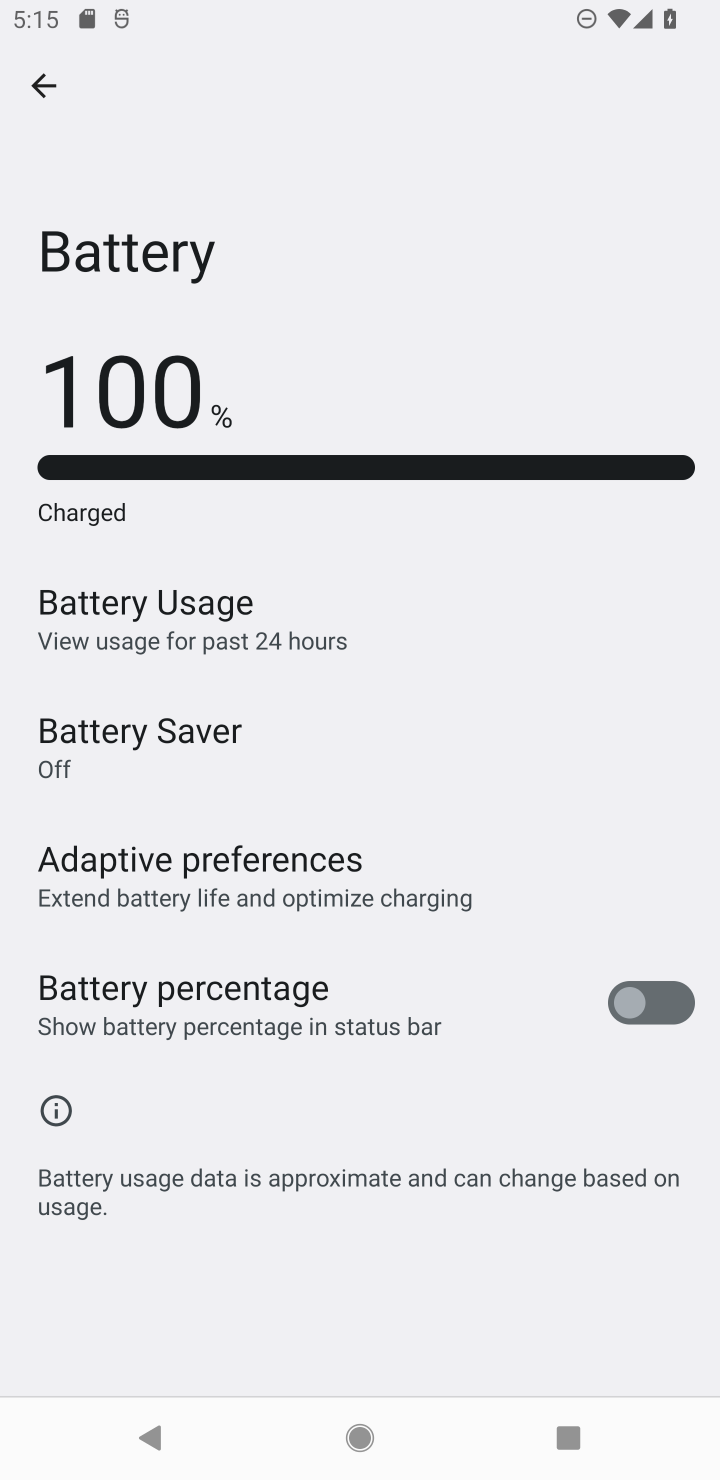
Step 33: click (274, 623)
Your task to perform on an android device: check battery use Image 34: 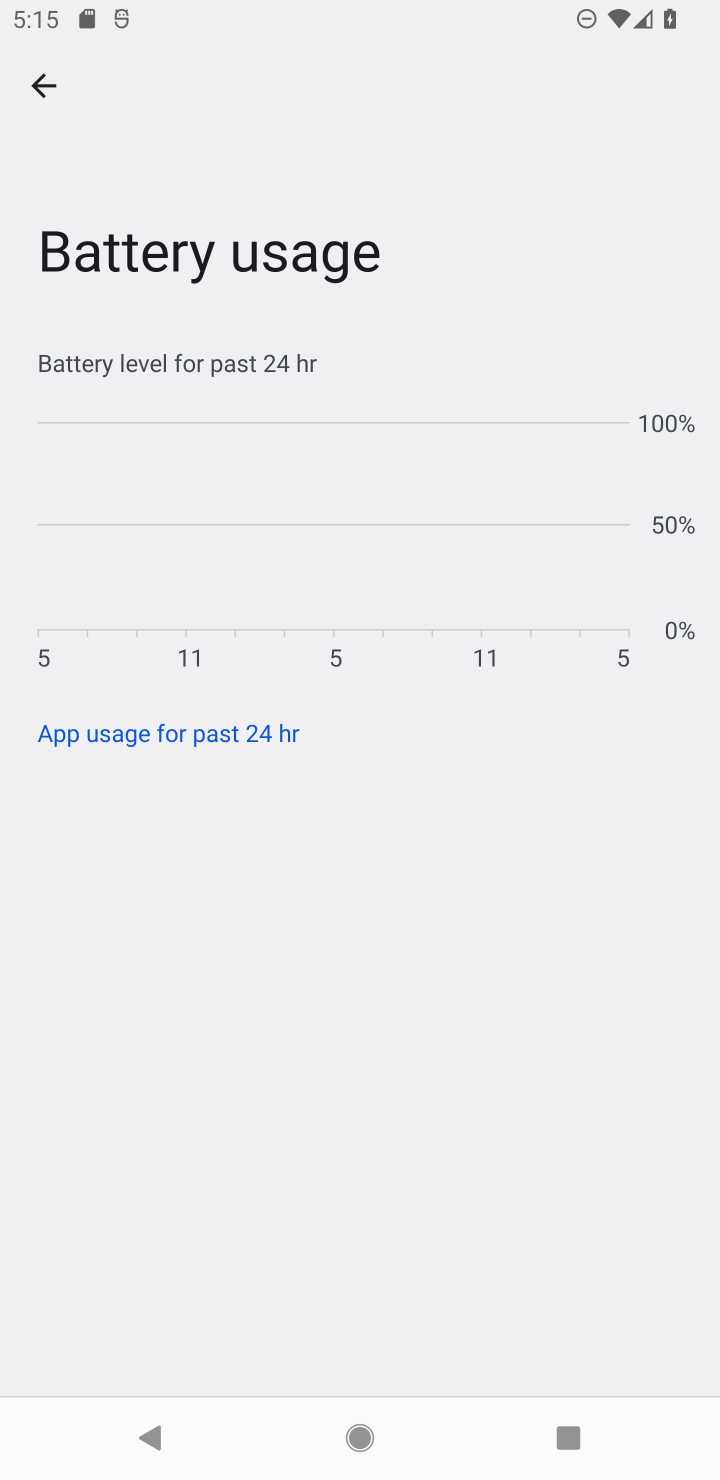
Step 34: task complete